Your task to perform on an android device: Search for the most popular coffee table on Crate & Barrel Image 0: 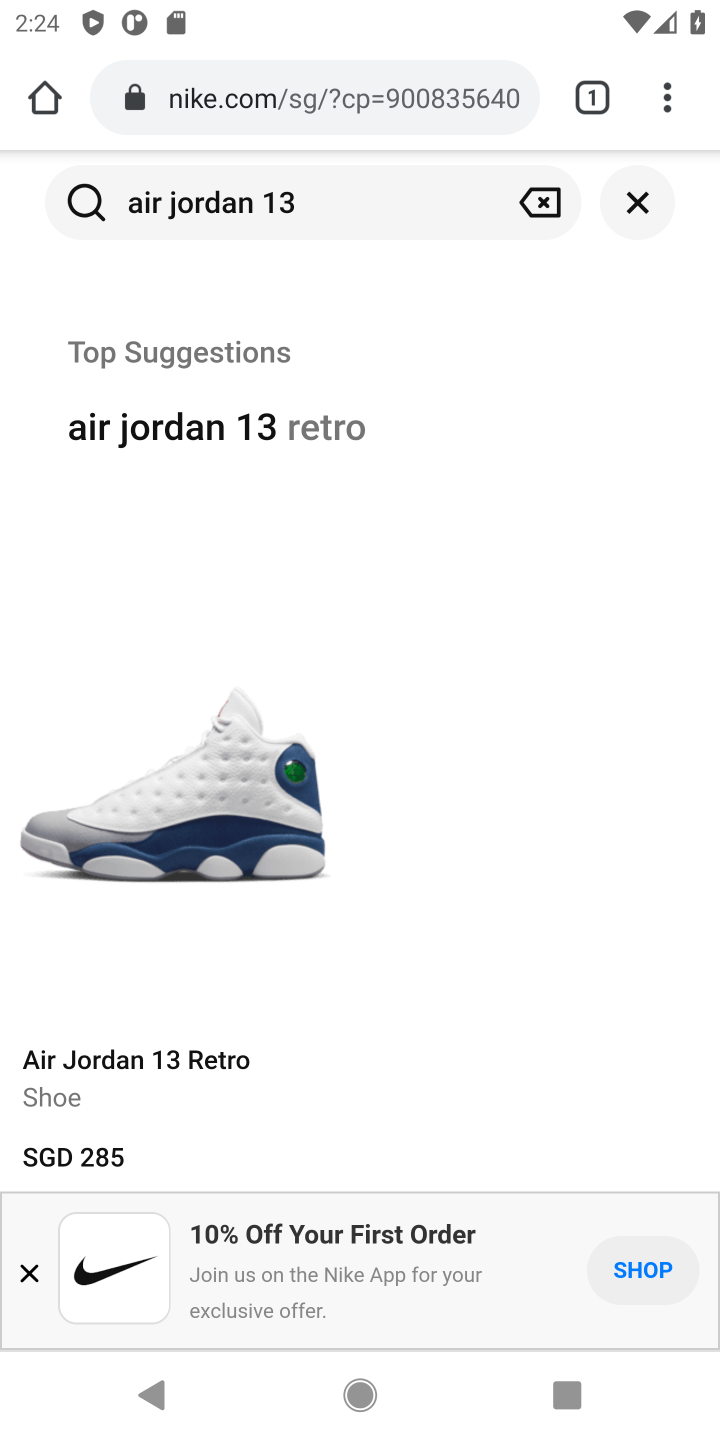
Step 0: press home button
Your task to perform on an android device: Search for the most popular coffee table on Crate & Barrel Image 1: 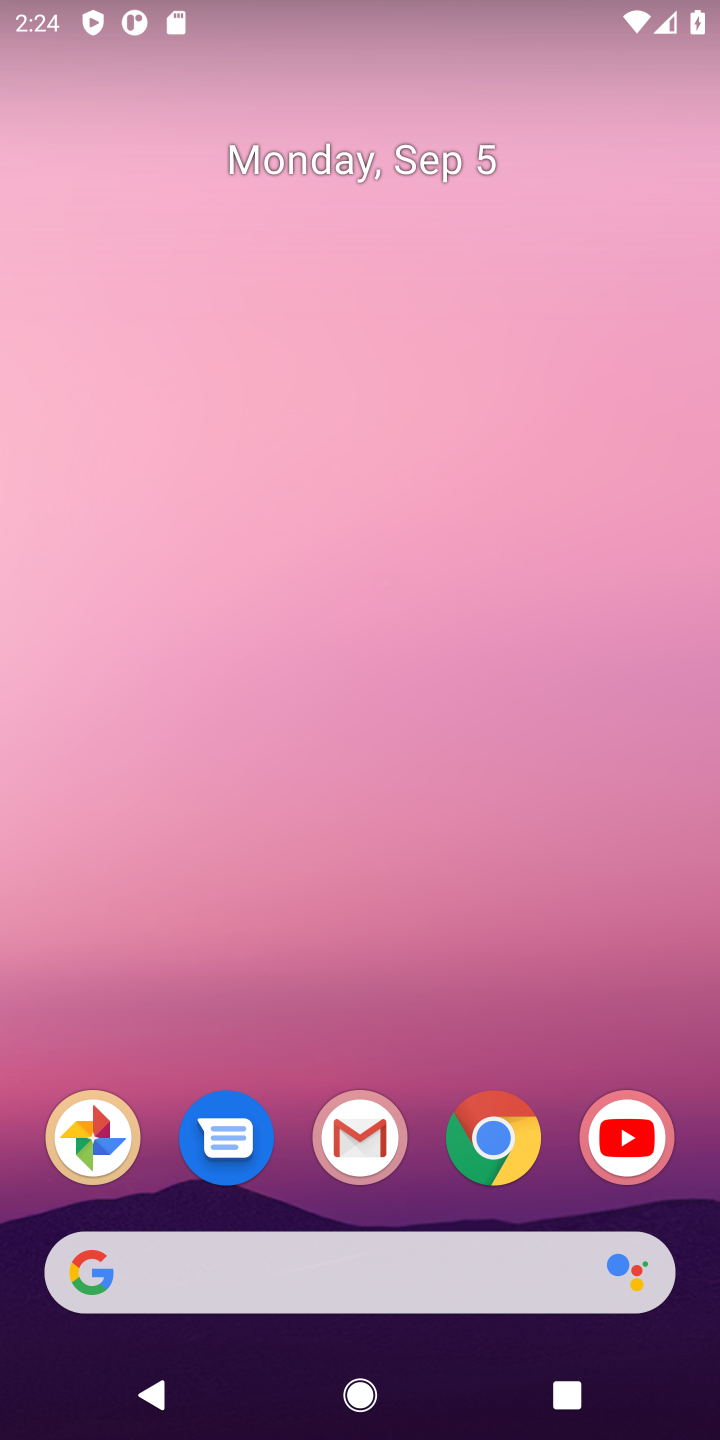
Step 1: click (497, 1157)
Your task to perform on an android device: Search for the most popular coffee table on Crate & Barrel Image 2: 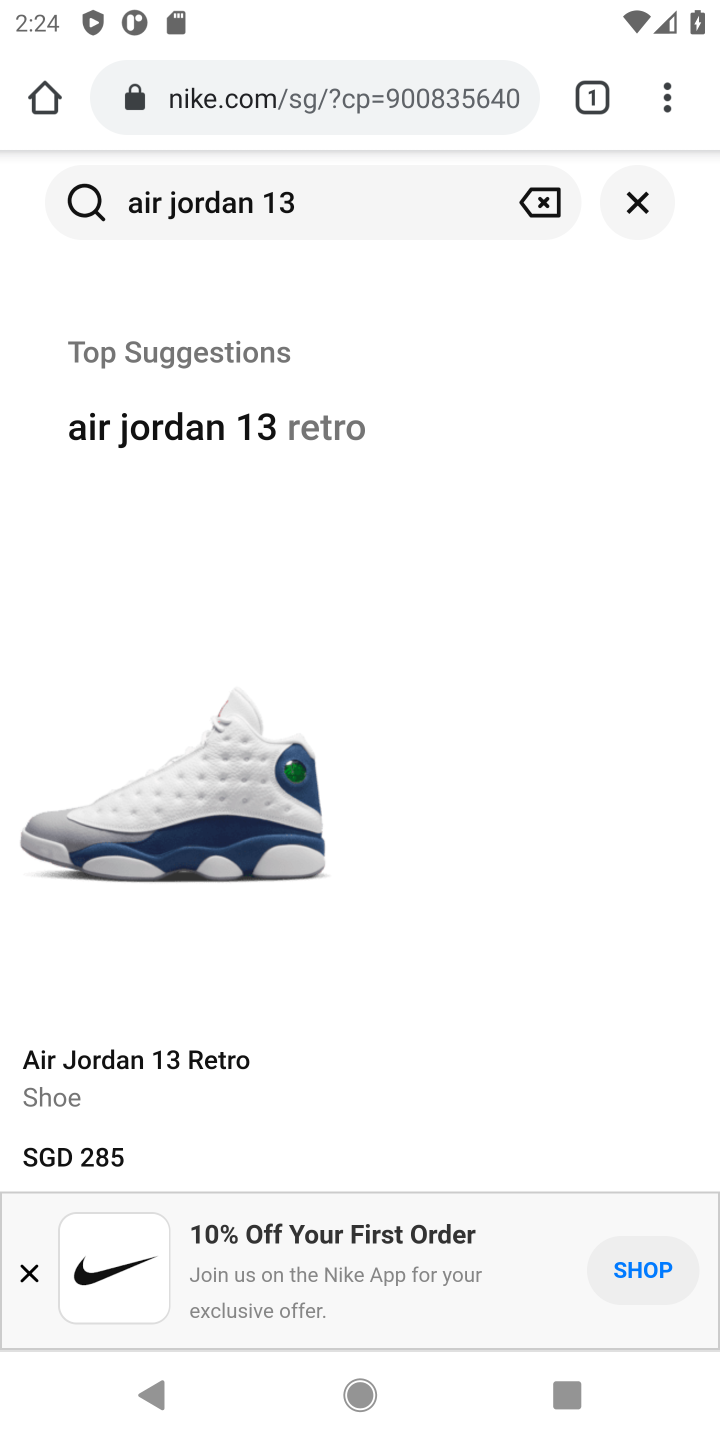
Step 2: click (323, 99)
Your task to perform on an android device: Search for the most popular coffee table on Crate & Barrel Image 3: 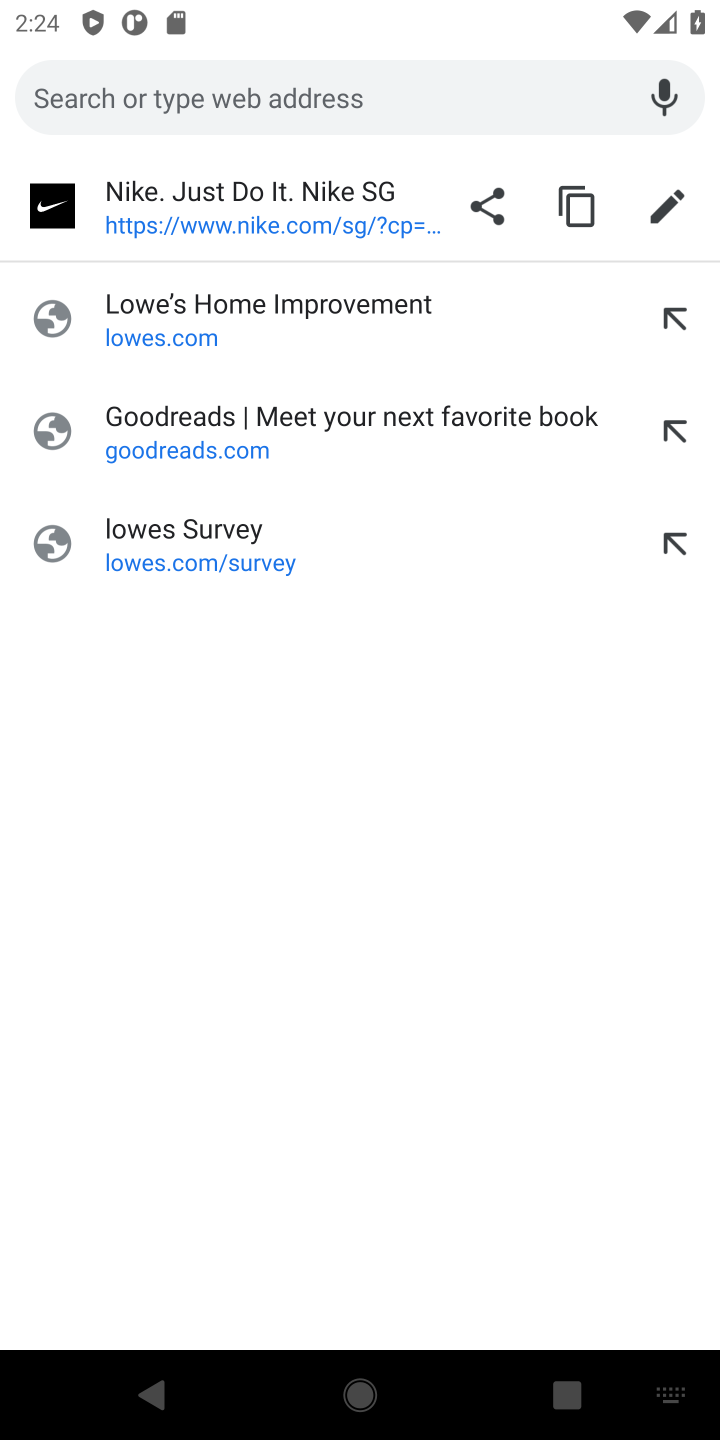
Step 3: type "crate & barrel"
Your task to perform on an android device: Search for the most popular coffee table on Crate & Barrel Image 4: 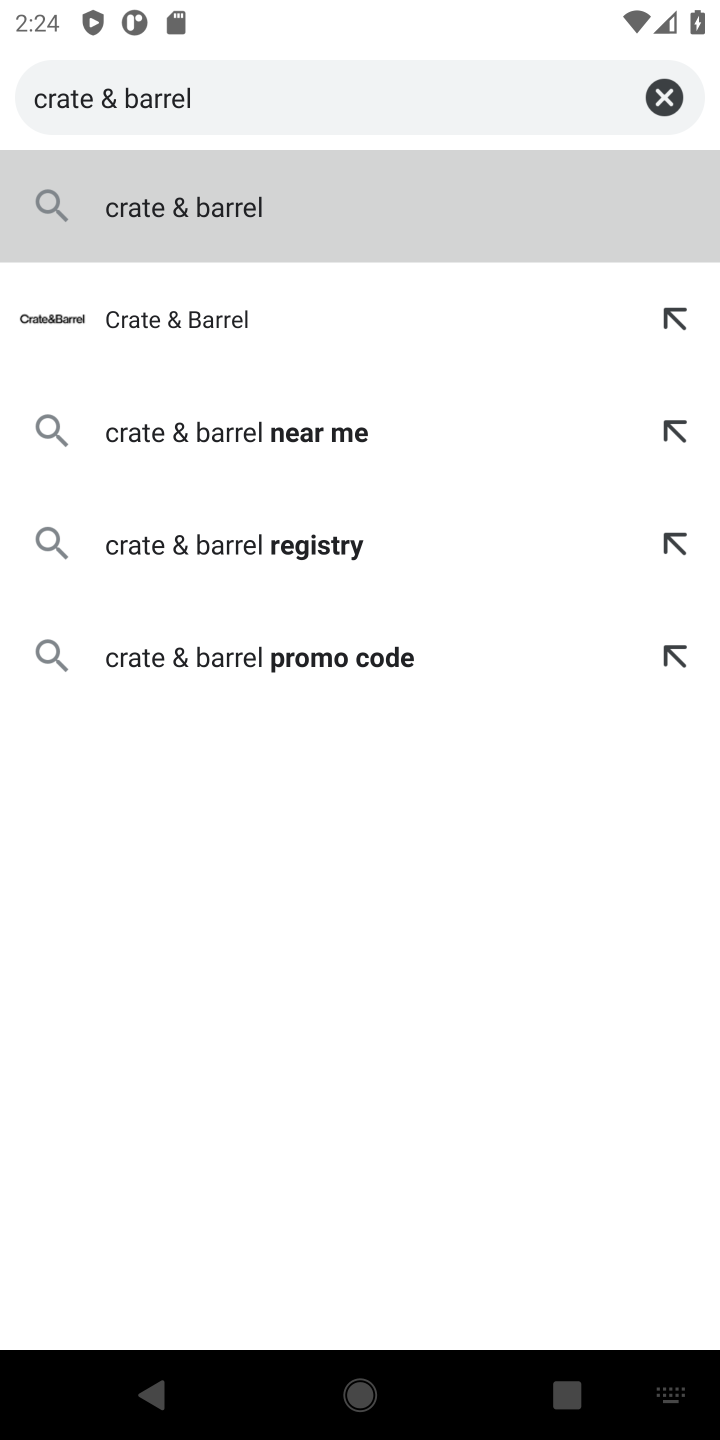
Step 4: type ""
Your task to perform on an android device: Search for the most popular coffee table on Crate & Barrel Image 5: 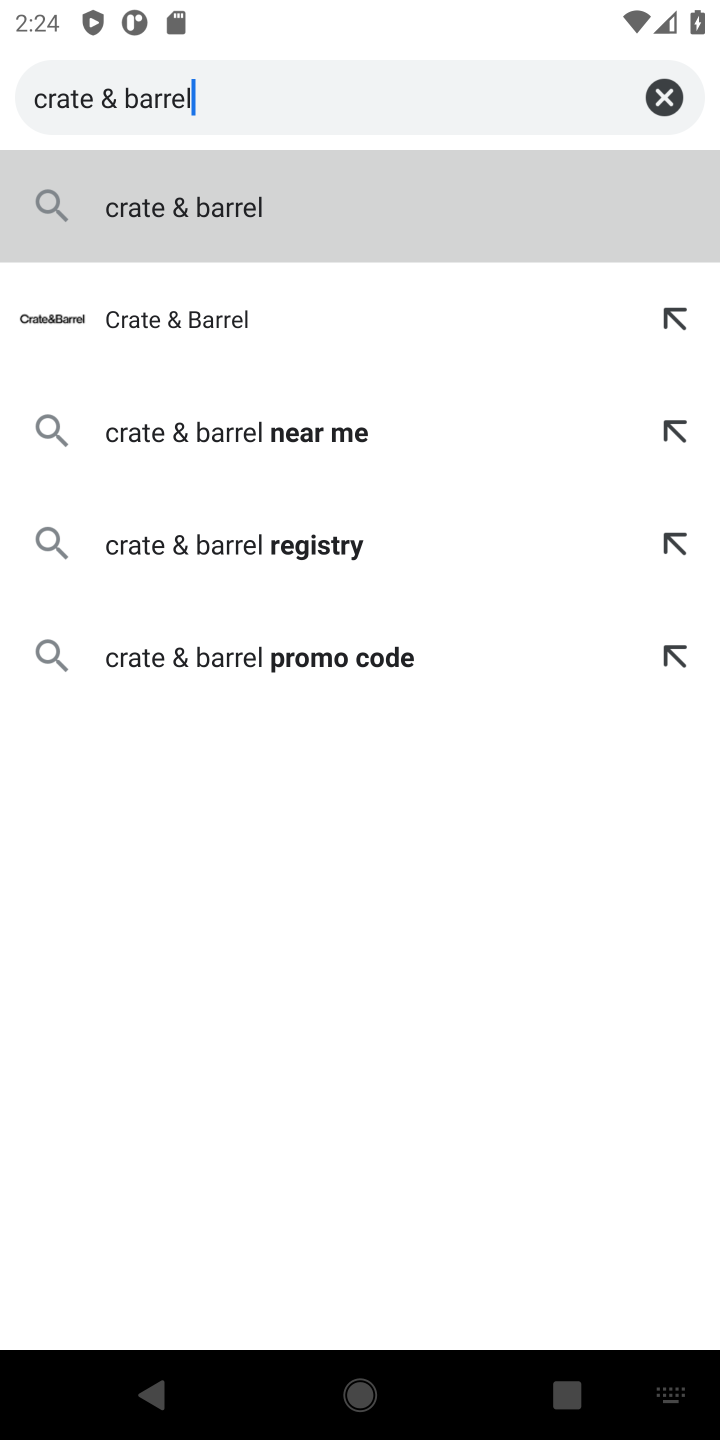
Step 5: click (149, 305)
Your task to perform on an android device: Search for the most popular coffee table on Crate & Barrel Image 6: 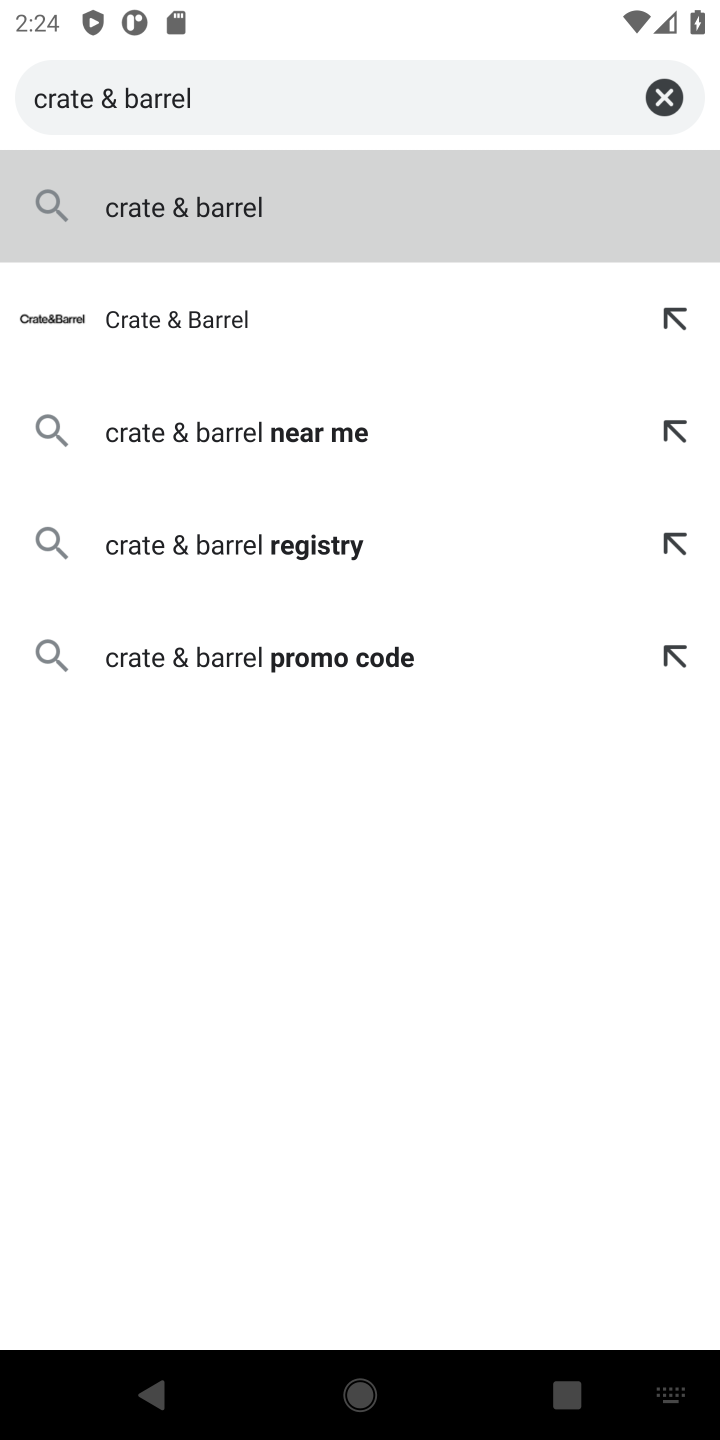
Step 6: click (140, 328)
Your task to perform on an android device: Search for the most popular coffee table on Crate & Barrel Image 7: 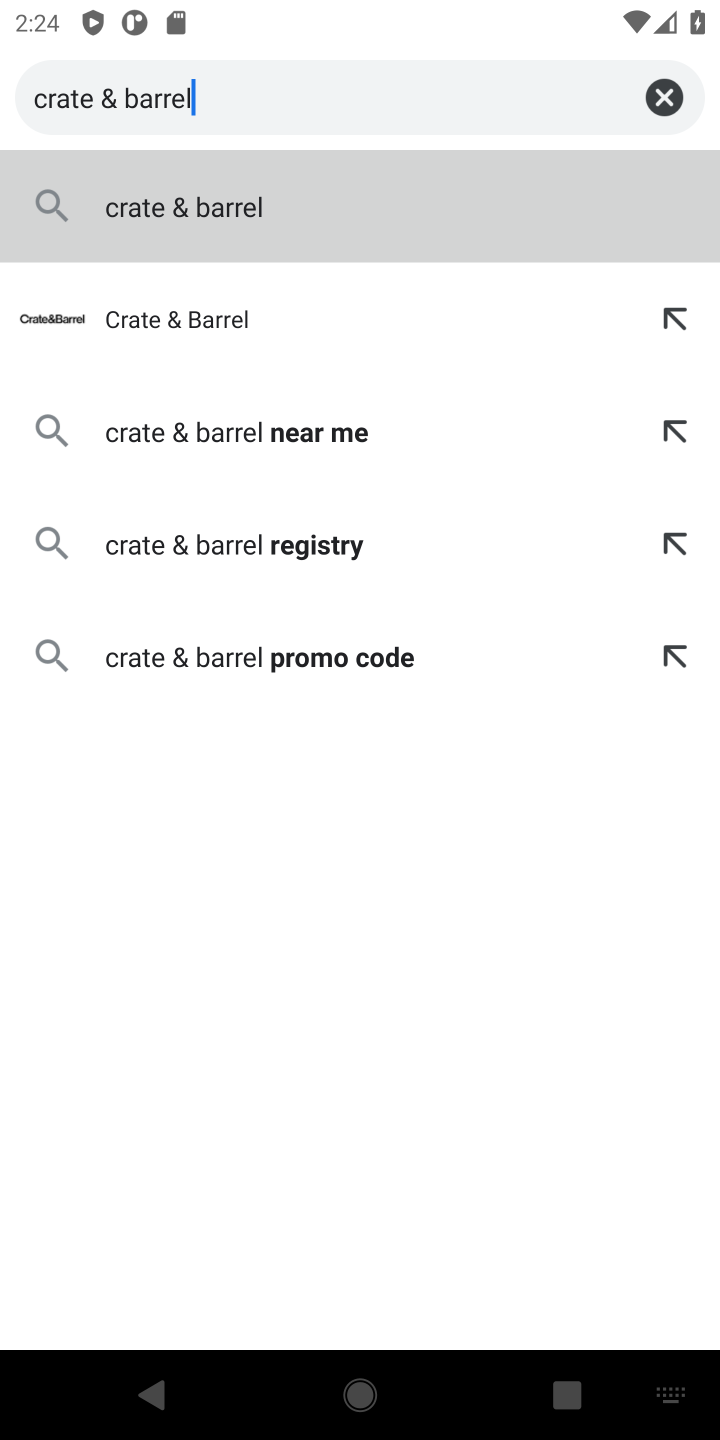
Step 7: click (220, 310)
Your task to perform on an android device: Search for the most popular coffee table on Crate & Barrel Image 8: 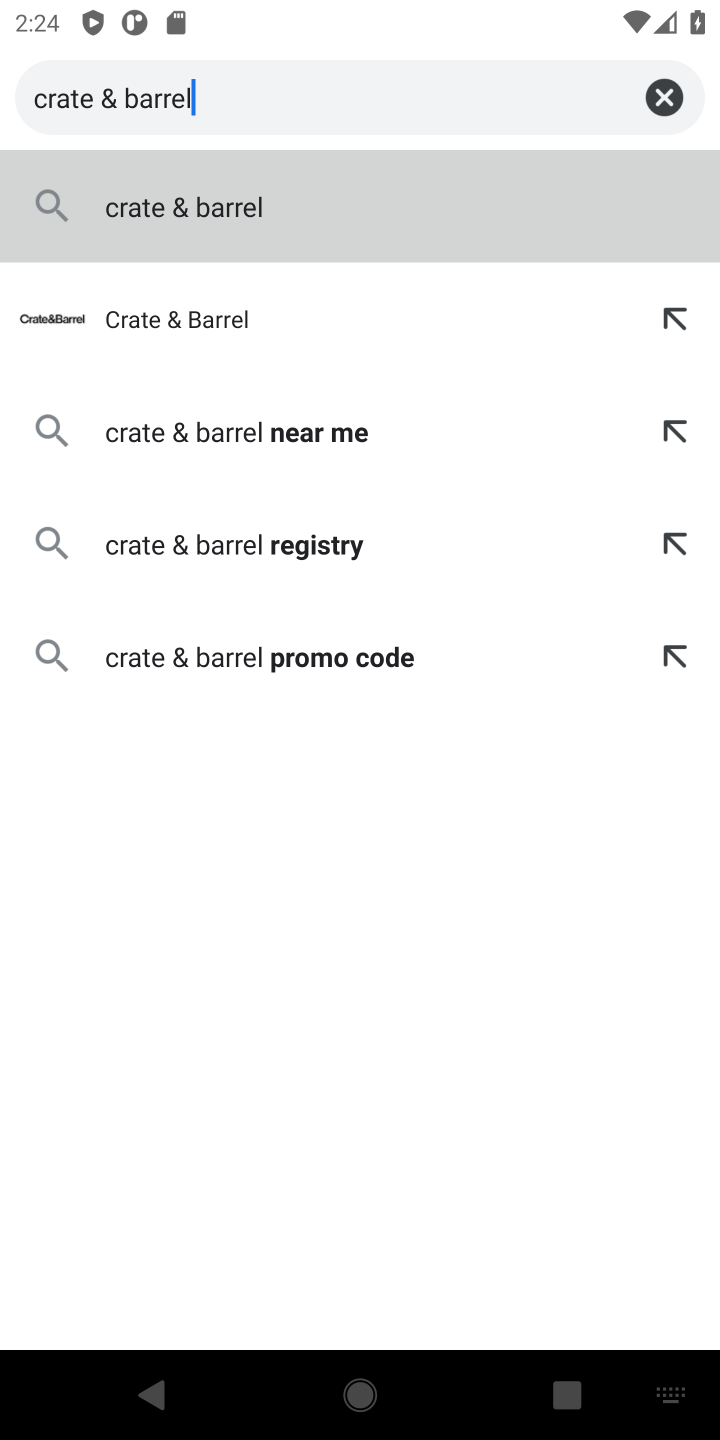
Step 8: click (113, 324)
Your task to perform on an android device: Search for the most popular coffee table on Crate & Barrel Image 9: 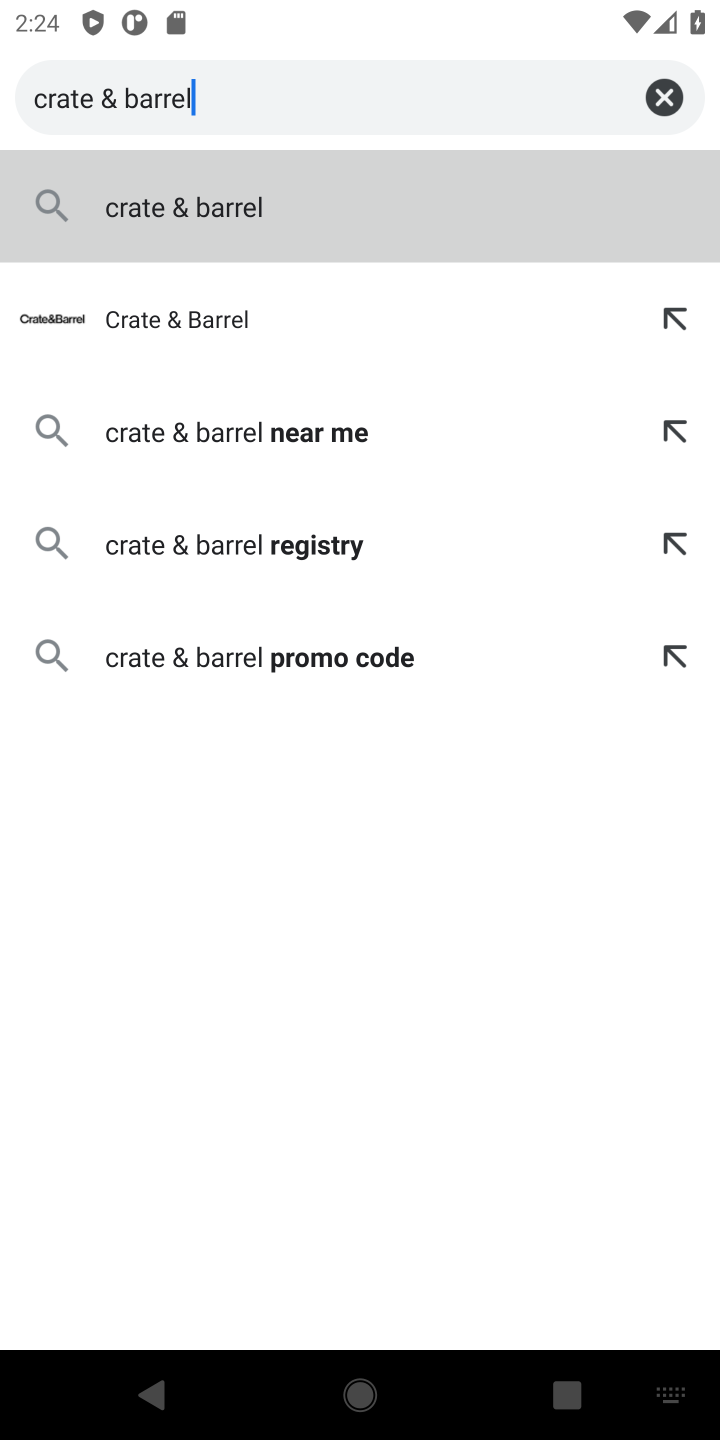
Step 9: click (150, 316)
Your task to perform on an android device: Search for the most popular coffee table on Crate & Barrel Image 10: 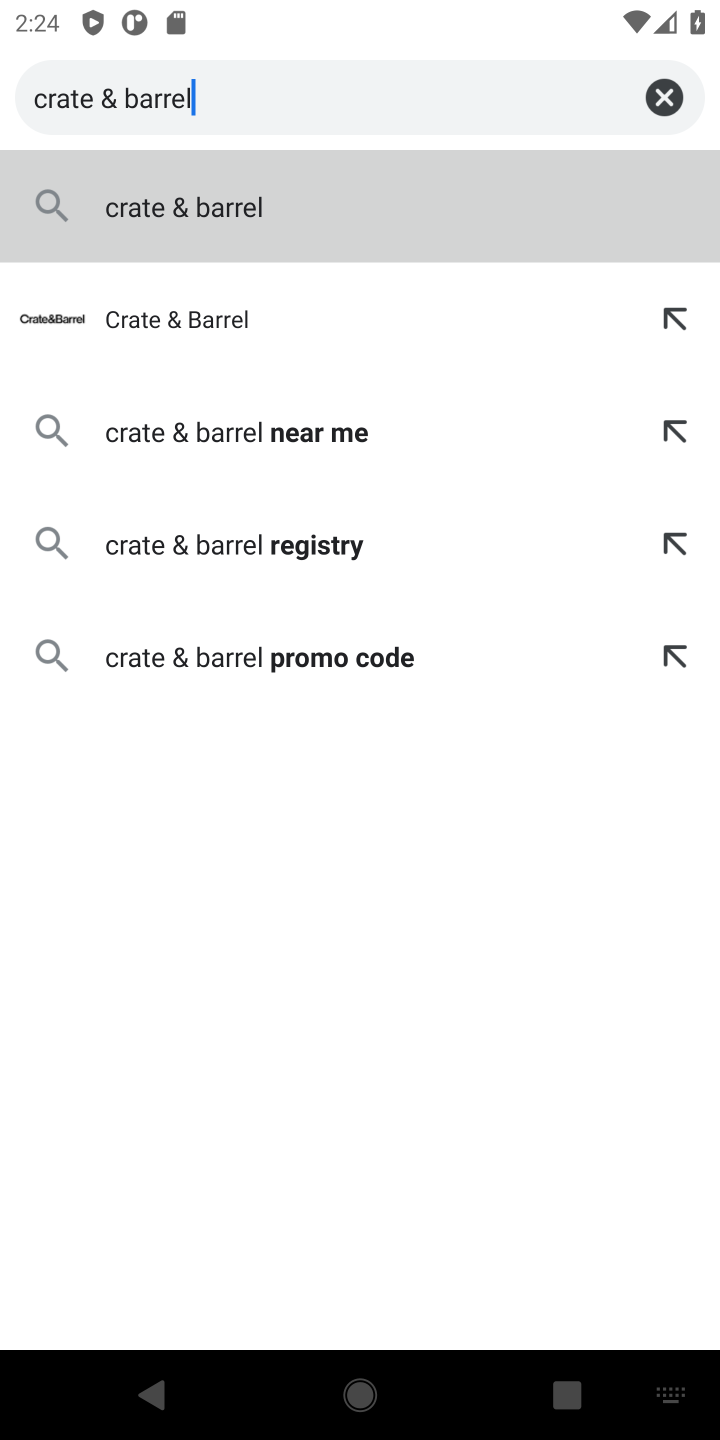
Step 10: click (148, 314)
Your task to perform on an android device: Search for the most popular coffee table on Crate & Barrel Image 11: 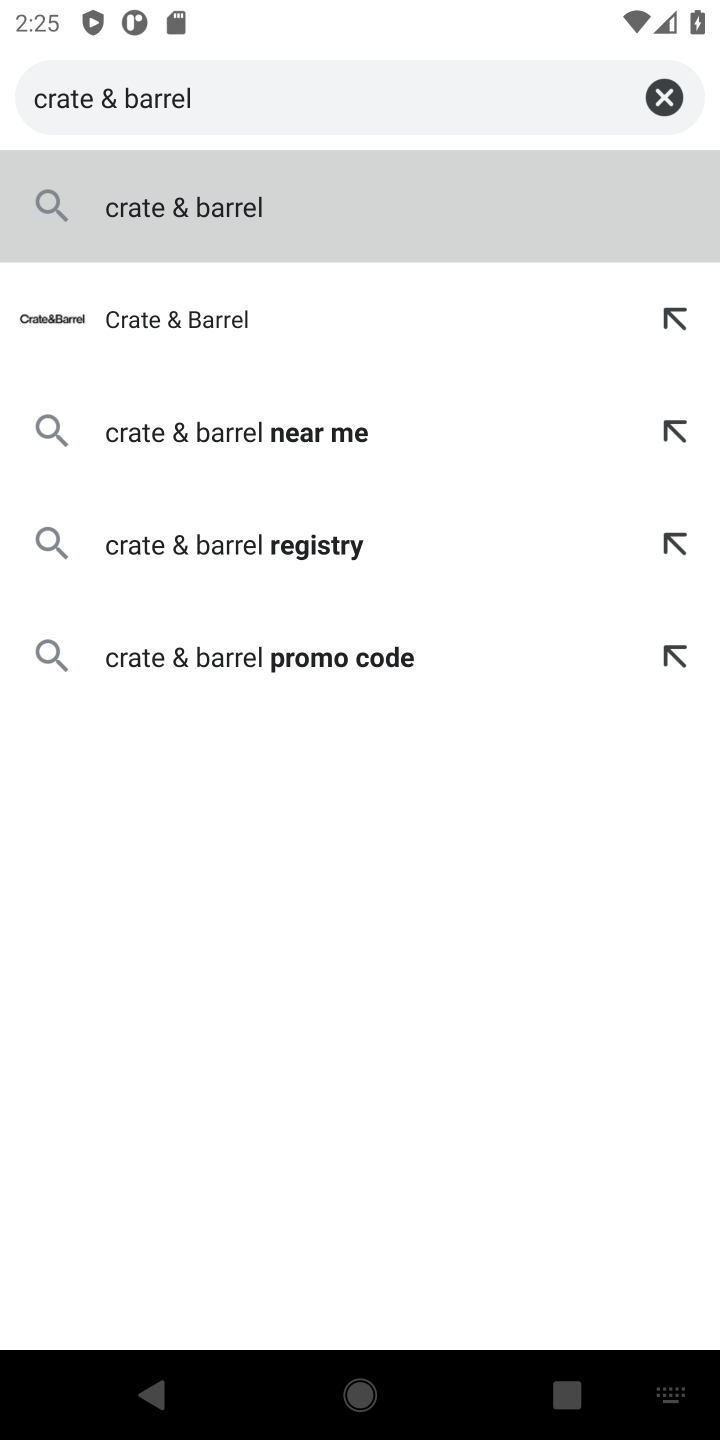
Step 11: click (148, 314)
Your task to perform on an android device: Search for the most popular coffee table on Crate & Barrel Image 12: 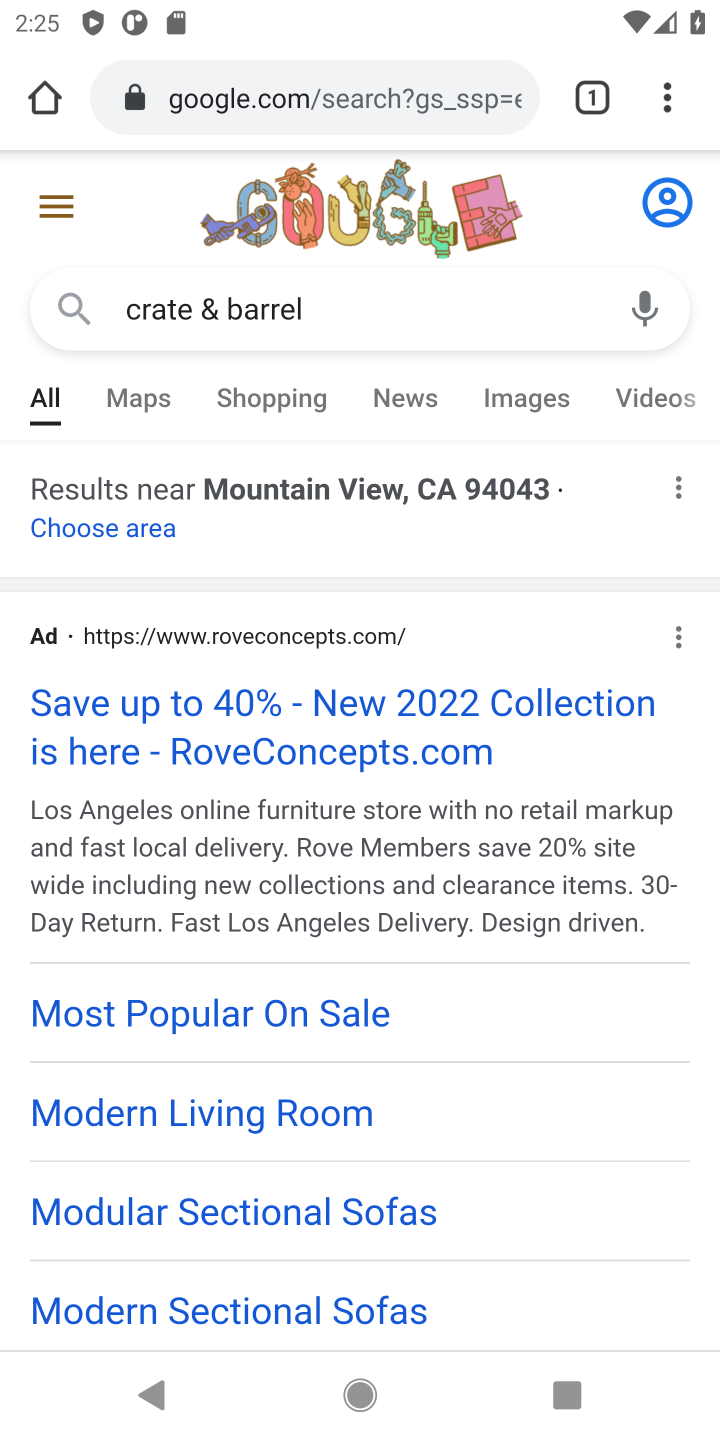
Step 12: drag from (670, 941) to (620, 601)
Your task to perform on an android device: Search for the most popular coffee table on Crate & Barrel Image 13: 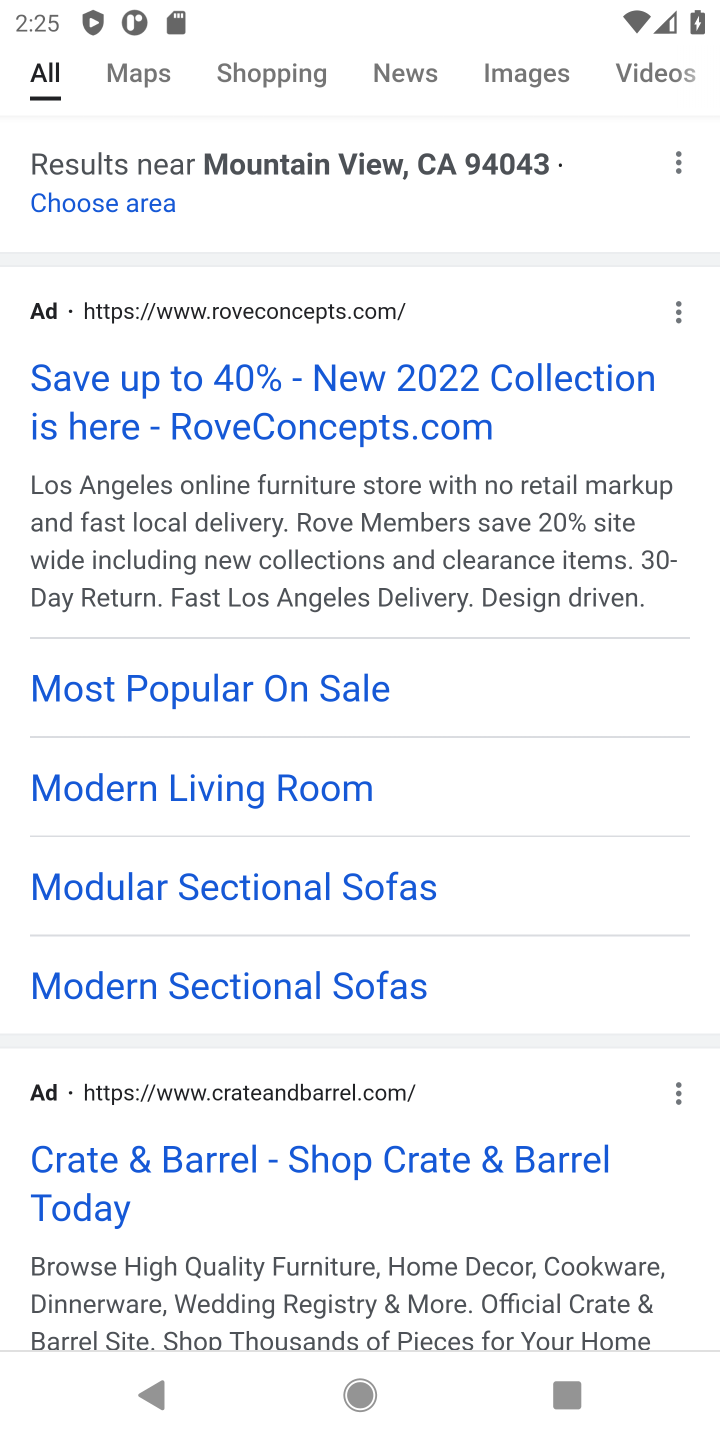
Step 13: click (173, 1145)
Your task to perform on an android device: Search for the most popular coffee table on Crate & Barrel Image 14: 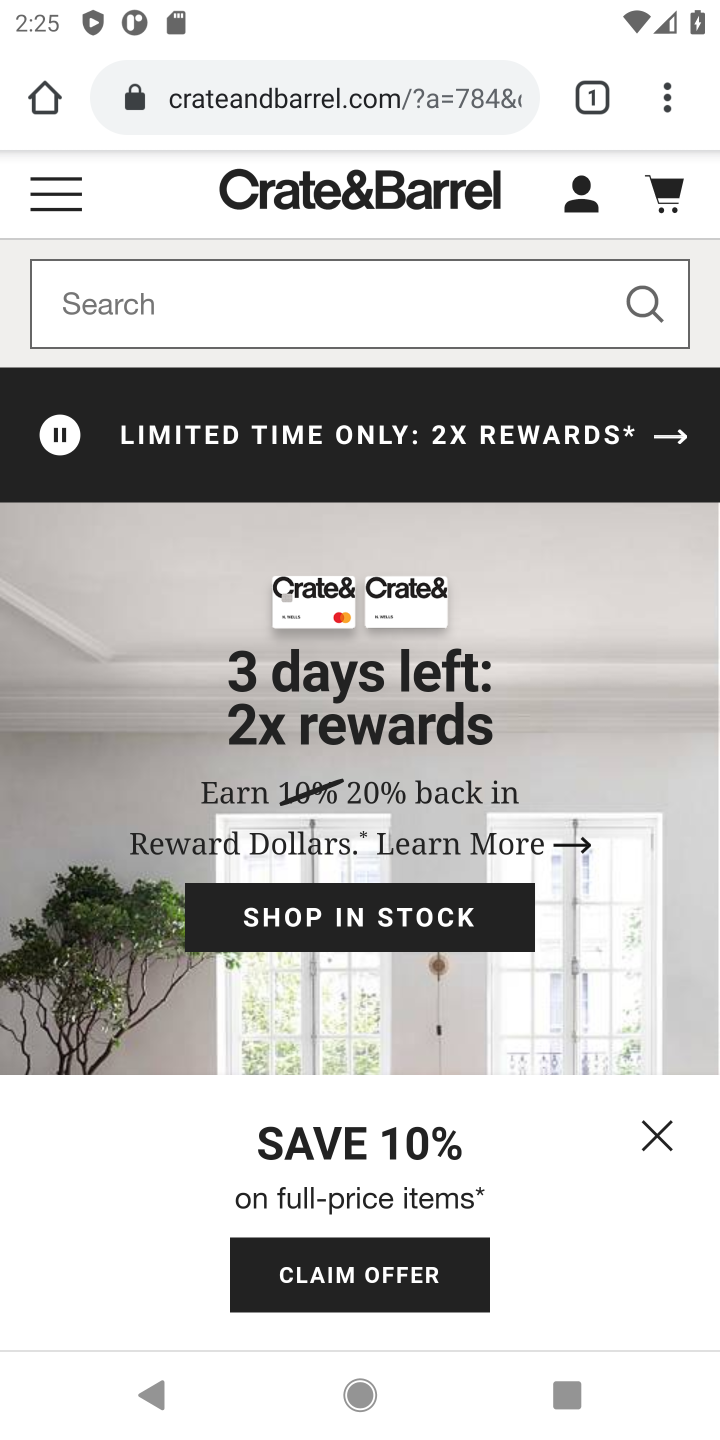
Step 14: click (225, 303)
Your task to perform on an android device: Search for the most popular coffee table on Crate & Barrel Image 15: 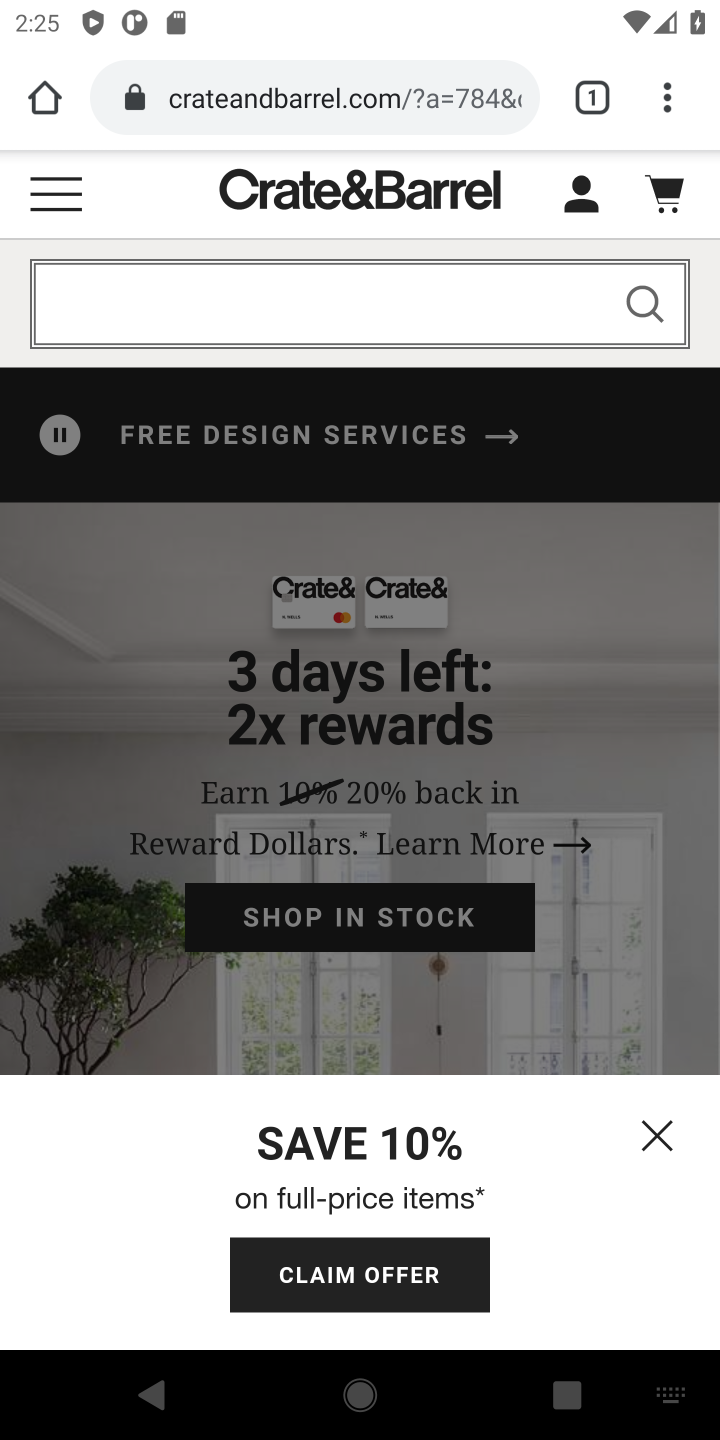
Step 15: type "coffee table "
Your task to perform on an android device: Search for the most popular coffee table on Crate & Barrel Image 16: 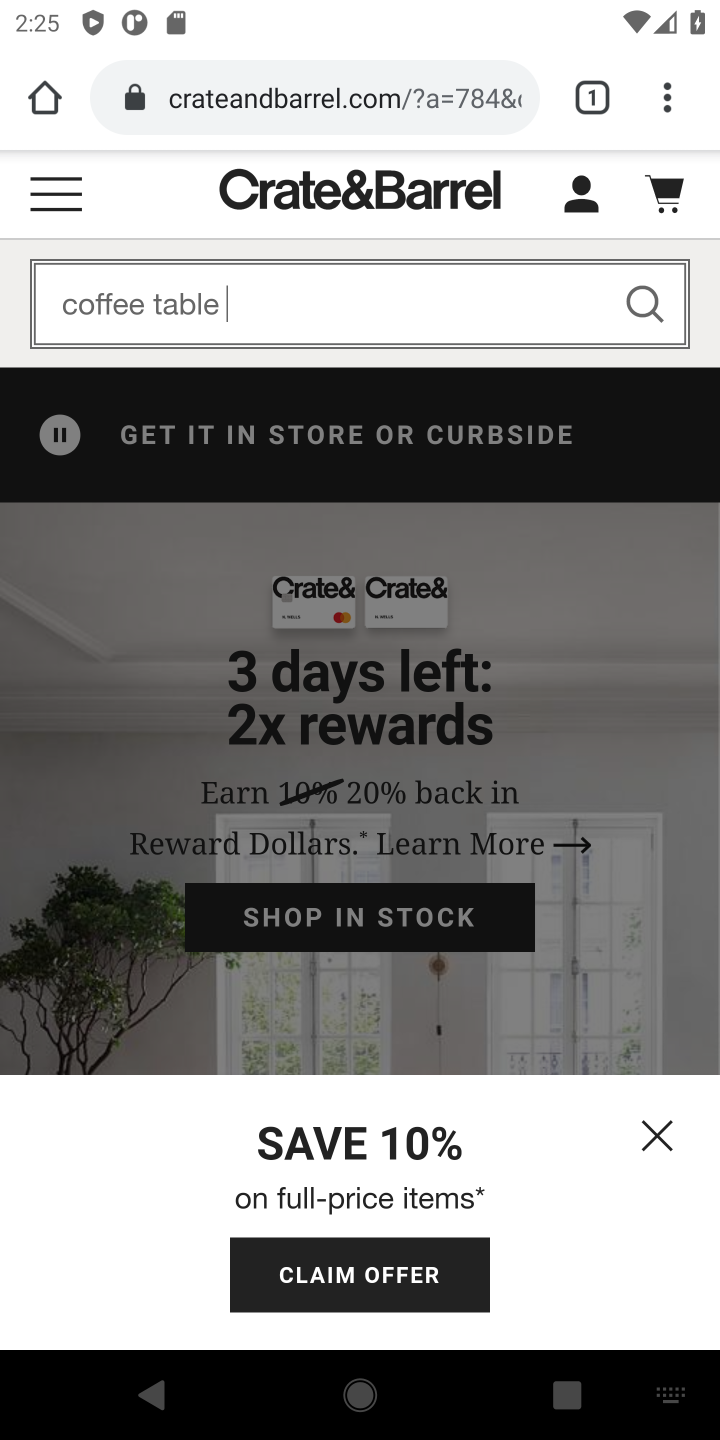
Step 16: click (656, 1132)
Your task to perform on an android device: Search for the most popular coffee table on Crate & Barrel Image 17: 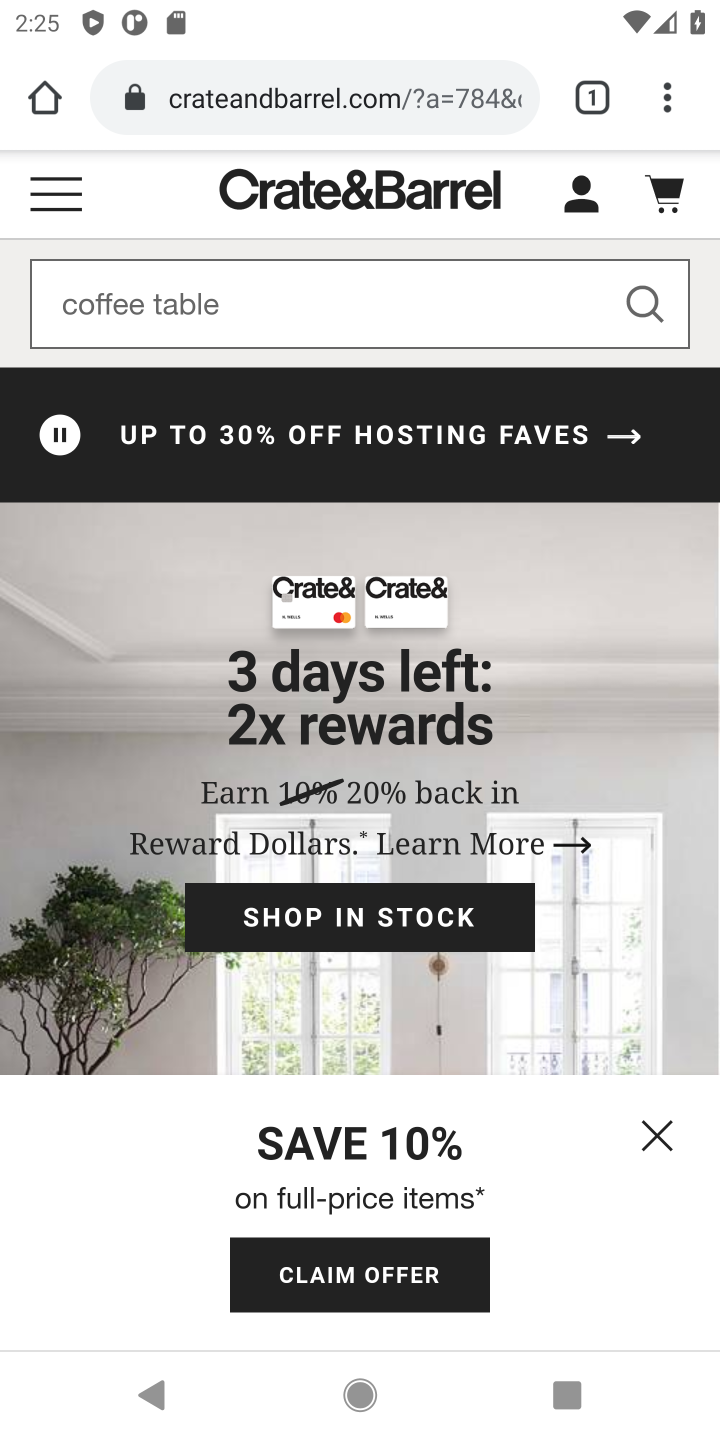
Step 17: click (646, 1139)
Your task to perform on an android device: Search for the most popular coffee table on Crate & Barrel Image 18: 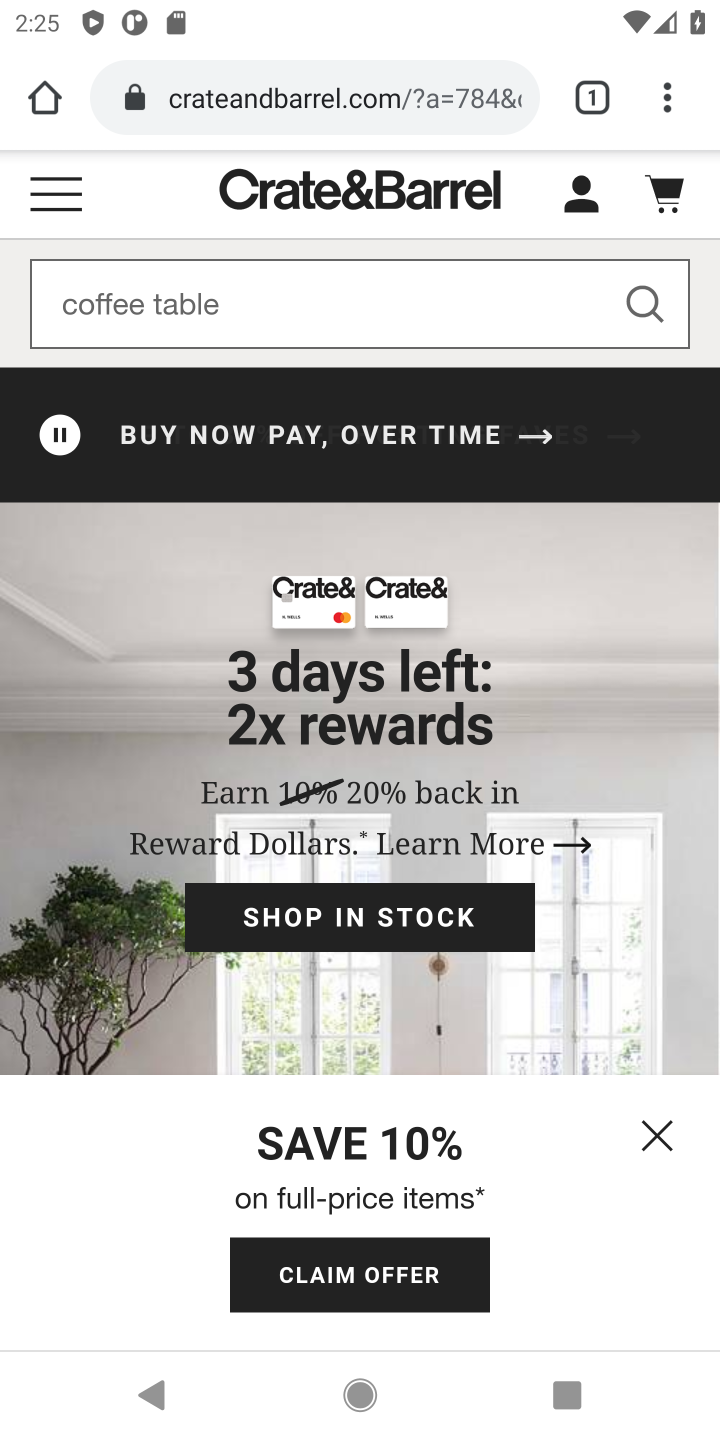
Step 18: drag from (650, 998) to (591, 525)
Your task to perform on an android device: Search for the most popular coffee table on Crate & Barrel Image 19: 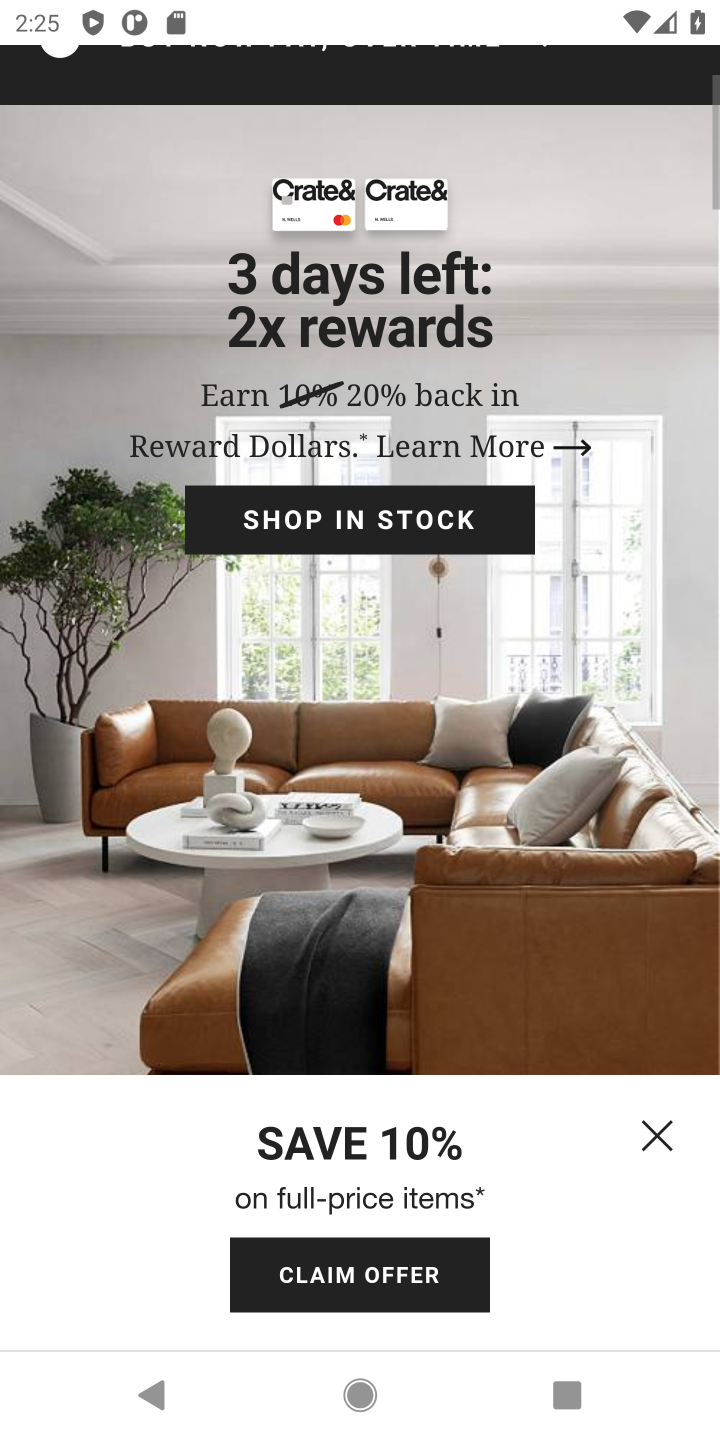
Step 19: drag from (445, 767) to (427, 415)
Your task to perform on an android device: Search for the most popular coffee table on Crate & Barrel Image 20: 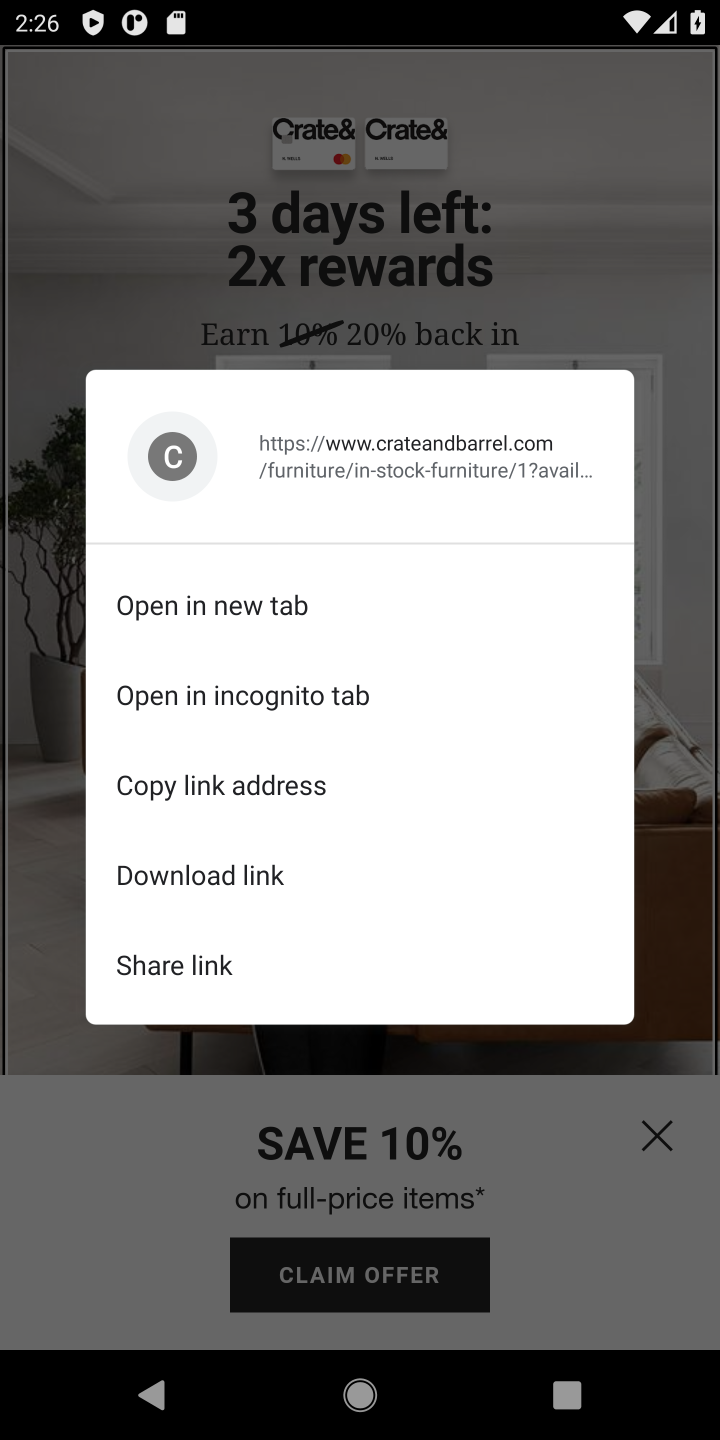
Step 20: click (659, 1136)
Your task to perform on an android device: Search for the most popular coffee table on Crate & Barrel Image 21: 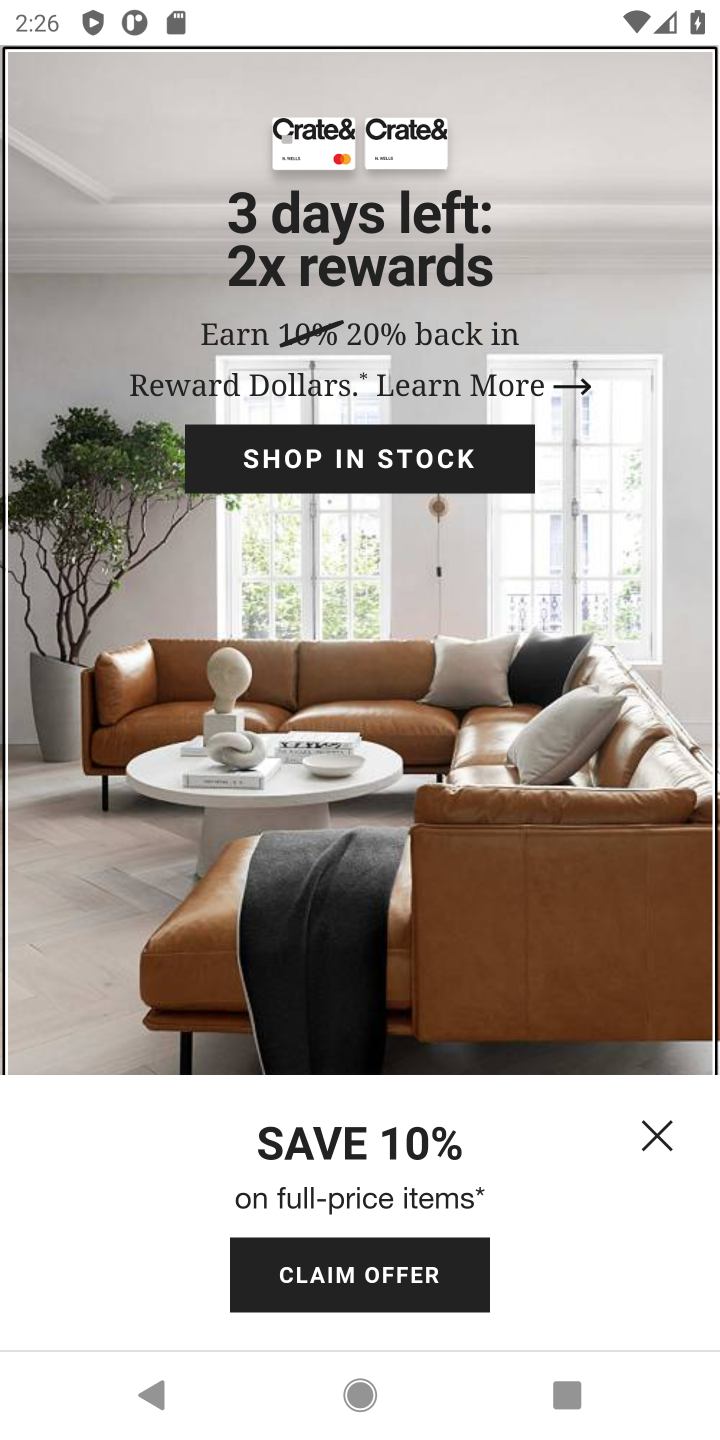
Step 21: drag from (652, 1132) to (551, 243)
Your task to perform on an android device: Search for the most popular coffee table on Crate & Barrel Image 22: 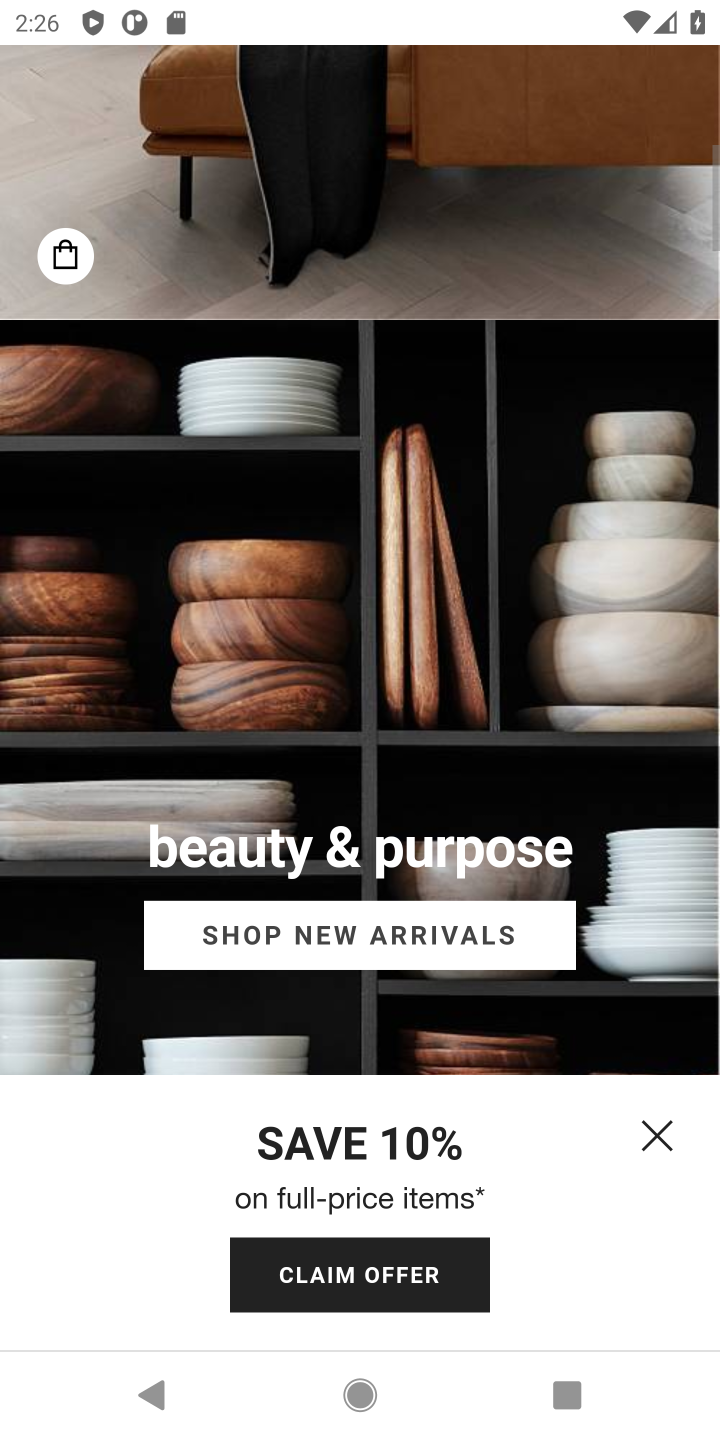
Step 22: click (646, 1140)
Your task to perform on an android device: Search for the most popular coffee table on Crate & Barrel Image 23: 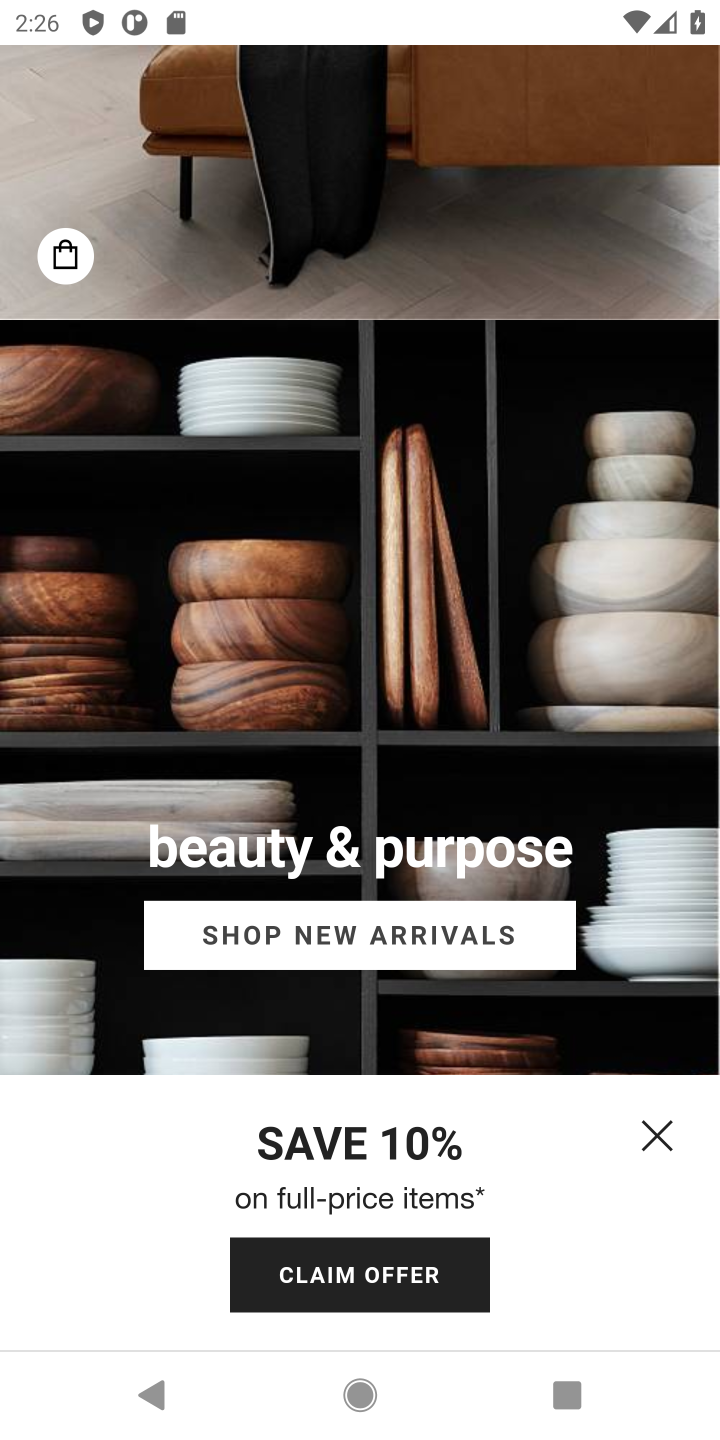
Step 23: click (657, 1138)
Your task to perform on an android device: Search for the most popular coffee table on Crate & Barrel Image 24: 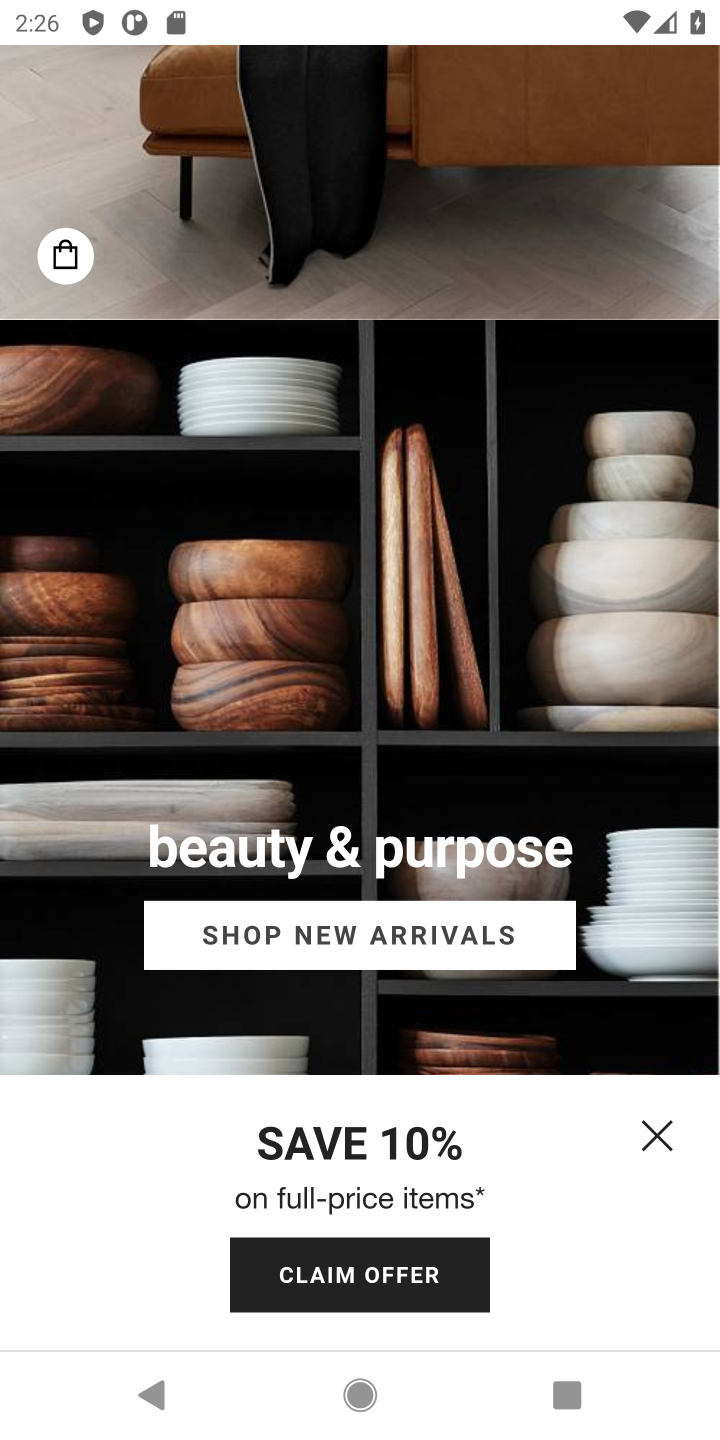
Step 24: press enter
Your task to perform on an android device: Search for the most popular coffee table on Crate & Barrel Image 25: 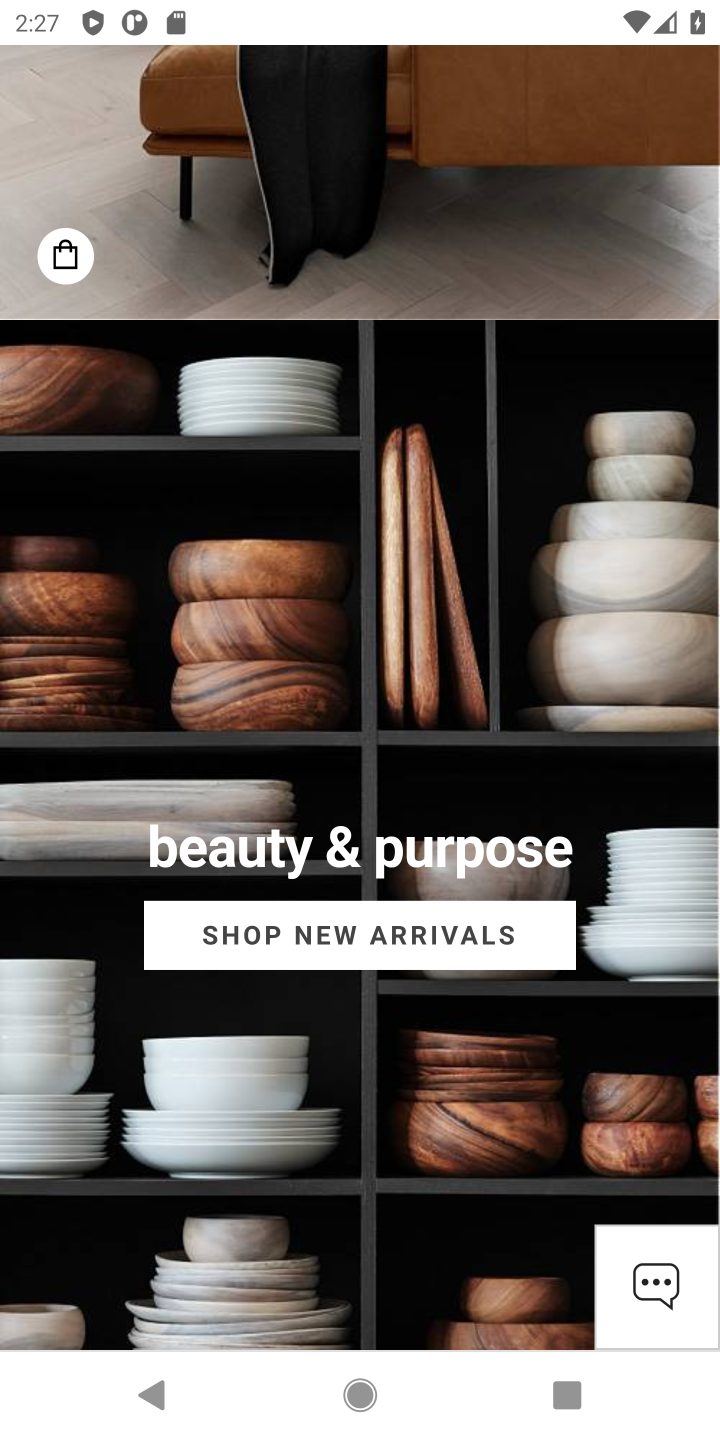
Step 25: press back button
Your task to perform on an android device: Search for the most popular coffee table on Crate & Barrel Image 26: 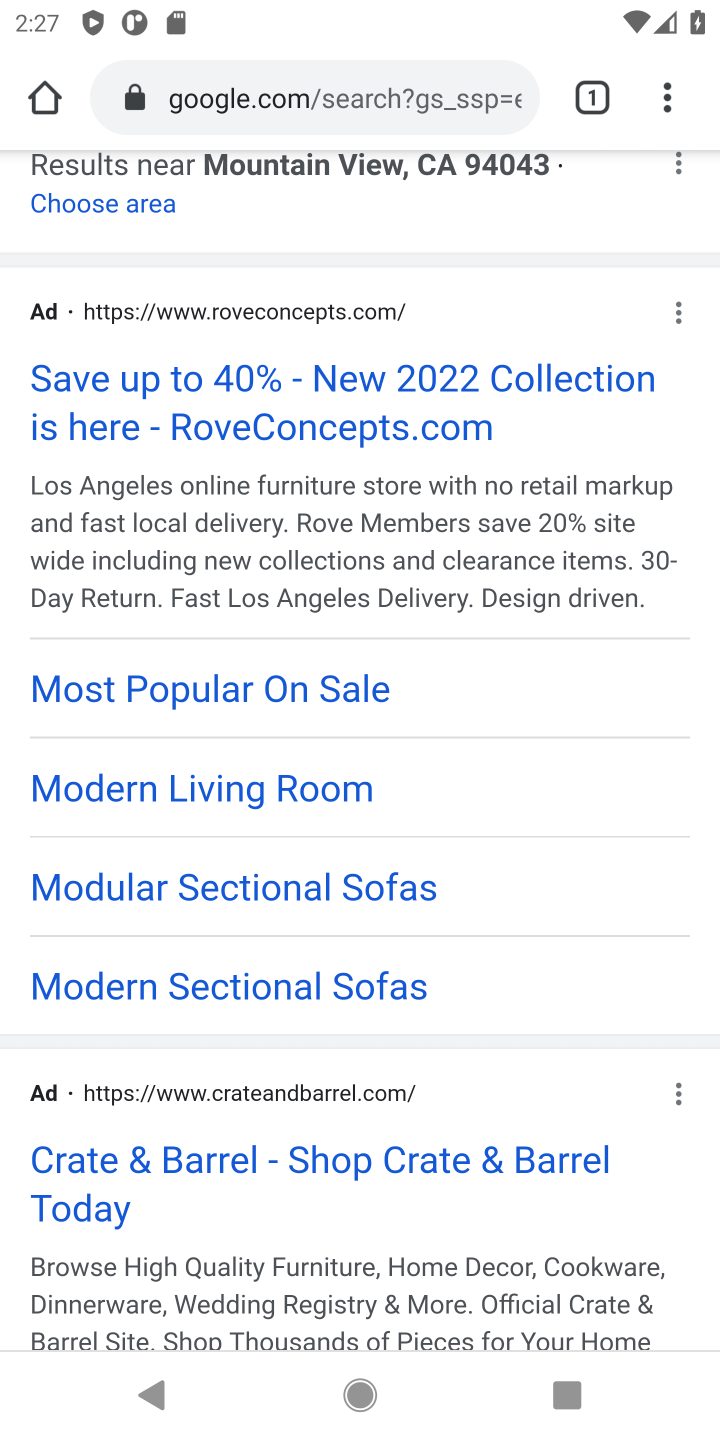
Step 26: click (205, 1150)
Your task to perform on an android device: Search for the most popular coffee table on Crate & Barrel Image 27: 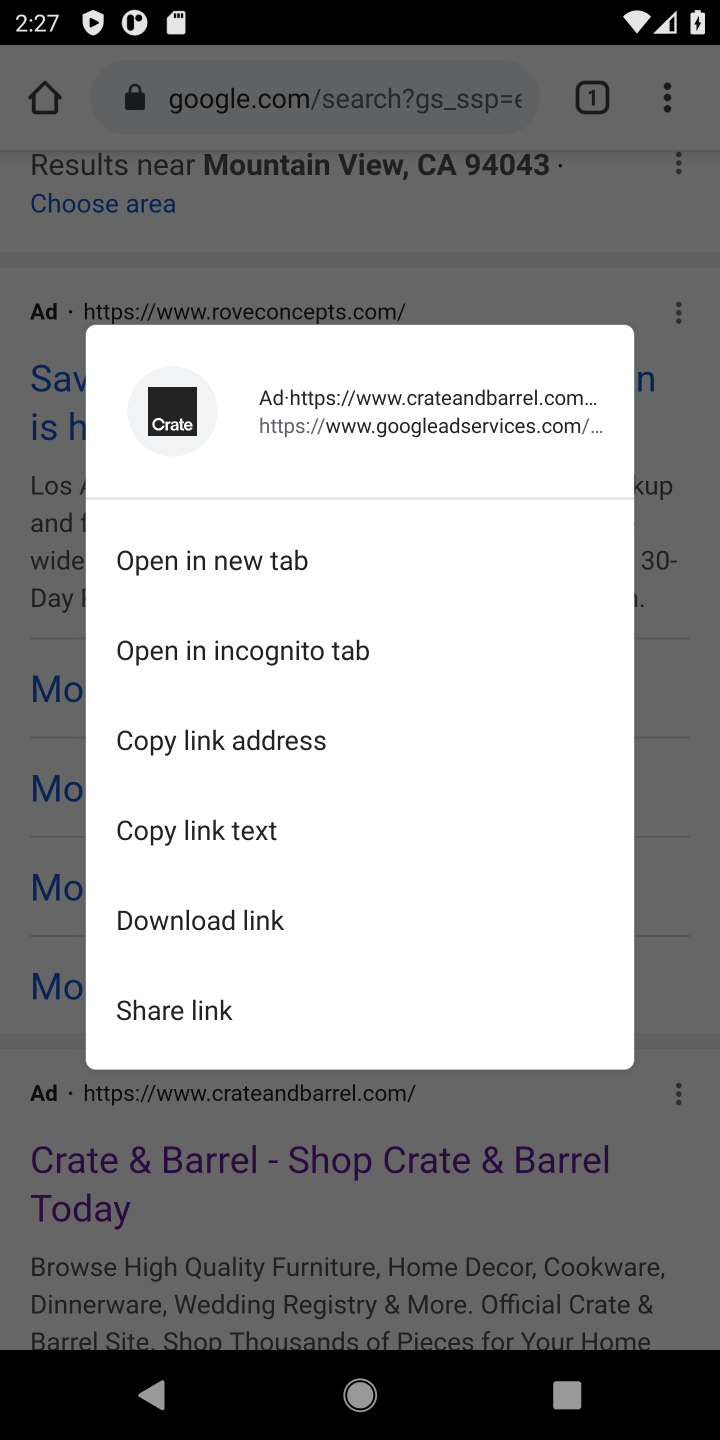
Step 27: click (649, 1190)
Your task to perform on an android device: Search for the most popular coffee table on Crate & Barrel Image 28: 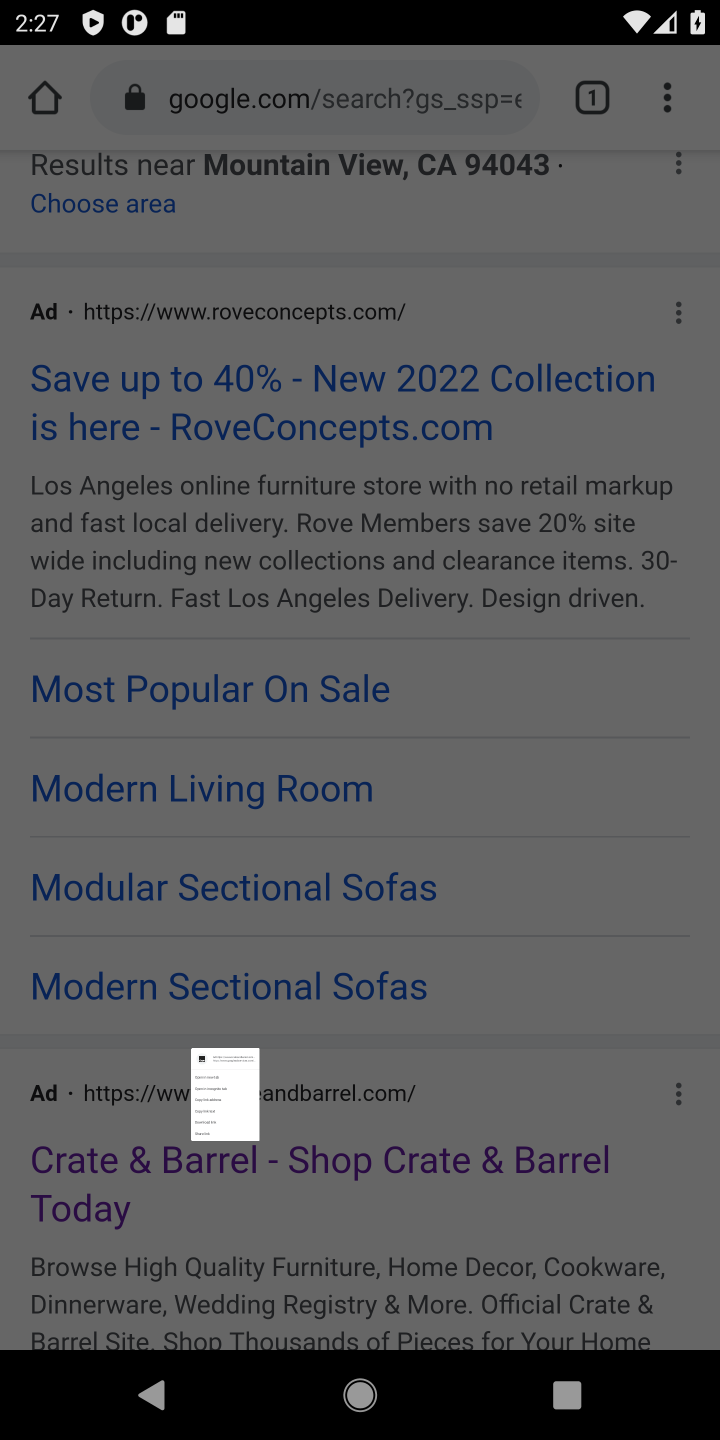
Step 28: drag from (652, 1182) to (595, 989)
Your task to perform on an android device: Search for the most popular coffee table on Crate & Barrel Image 29: 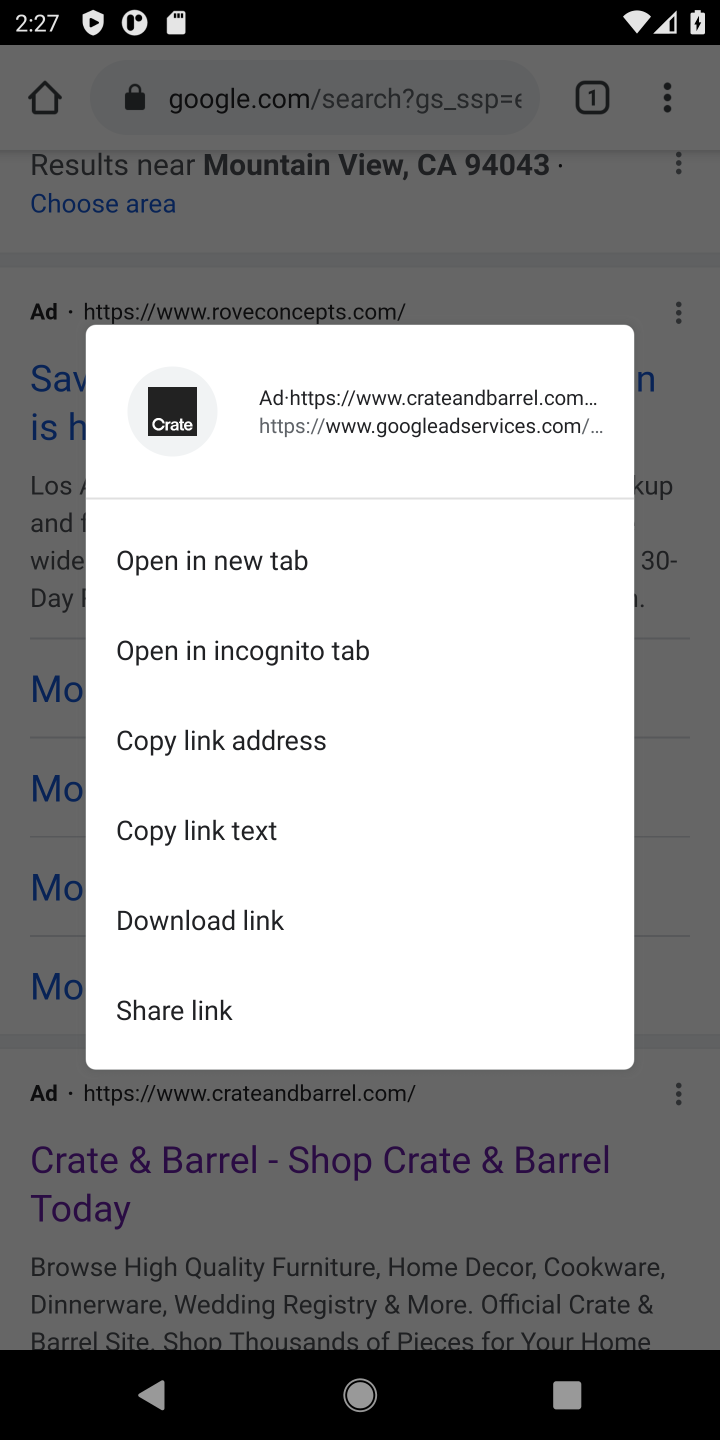
Step 29: click (189, 1165)
Your task to perform on an android device: Search for the most popular coffee table on Crate & Barrel Image 30: 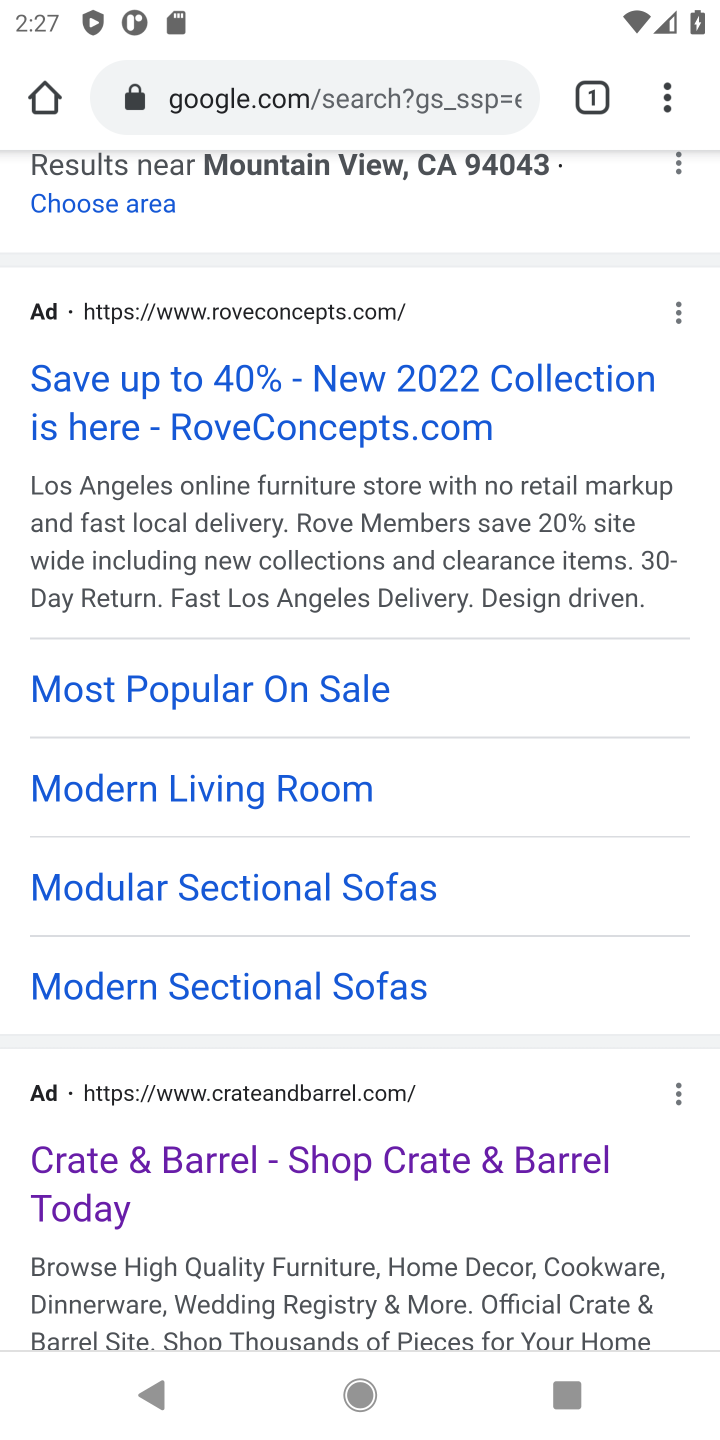
Step 30: click (188, 1165)
Your task to perform on an android device: Search for the most popular coffee table on Crate & Barrel Image 31: 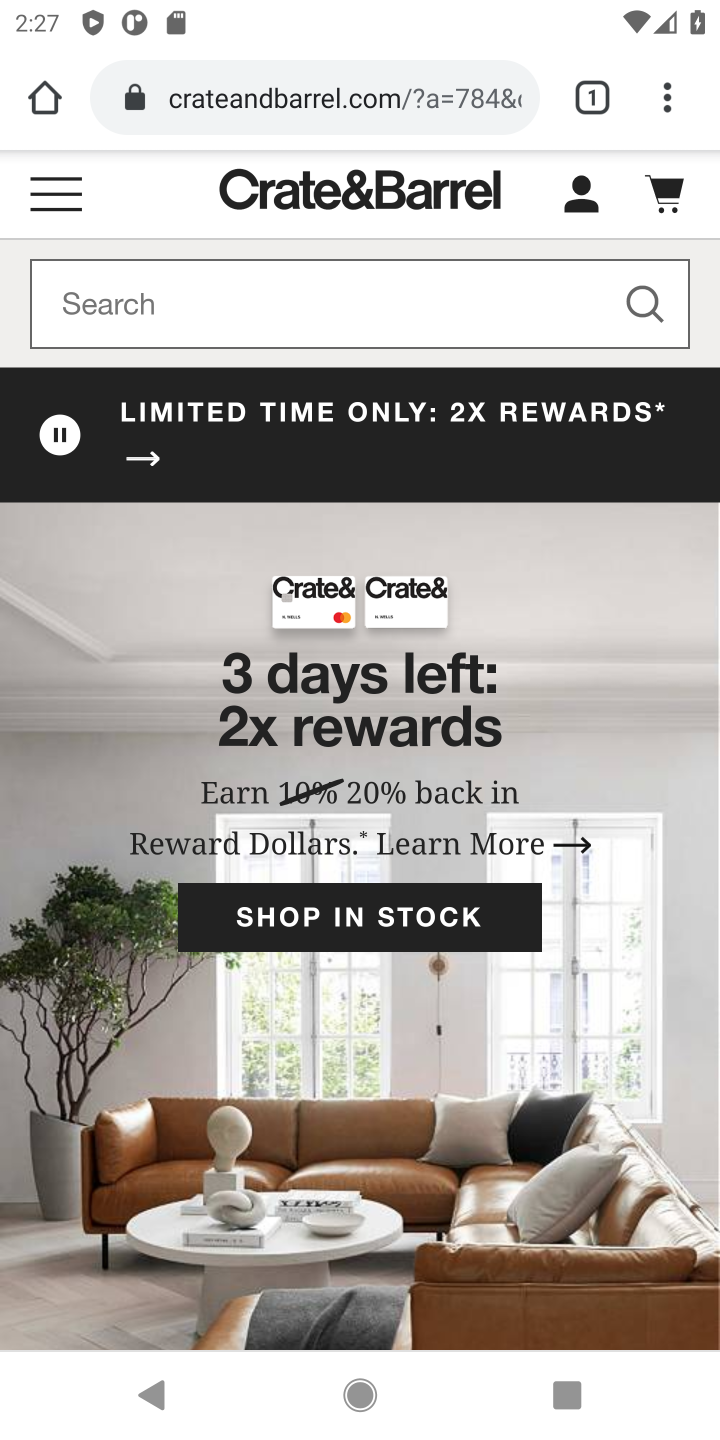
Step 31: click (97, 236)
Your task to perform on an android device: Search for the most popular coffee table on Crate & Barrel Image 32: 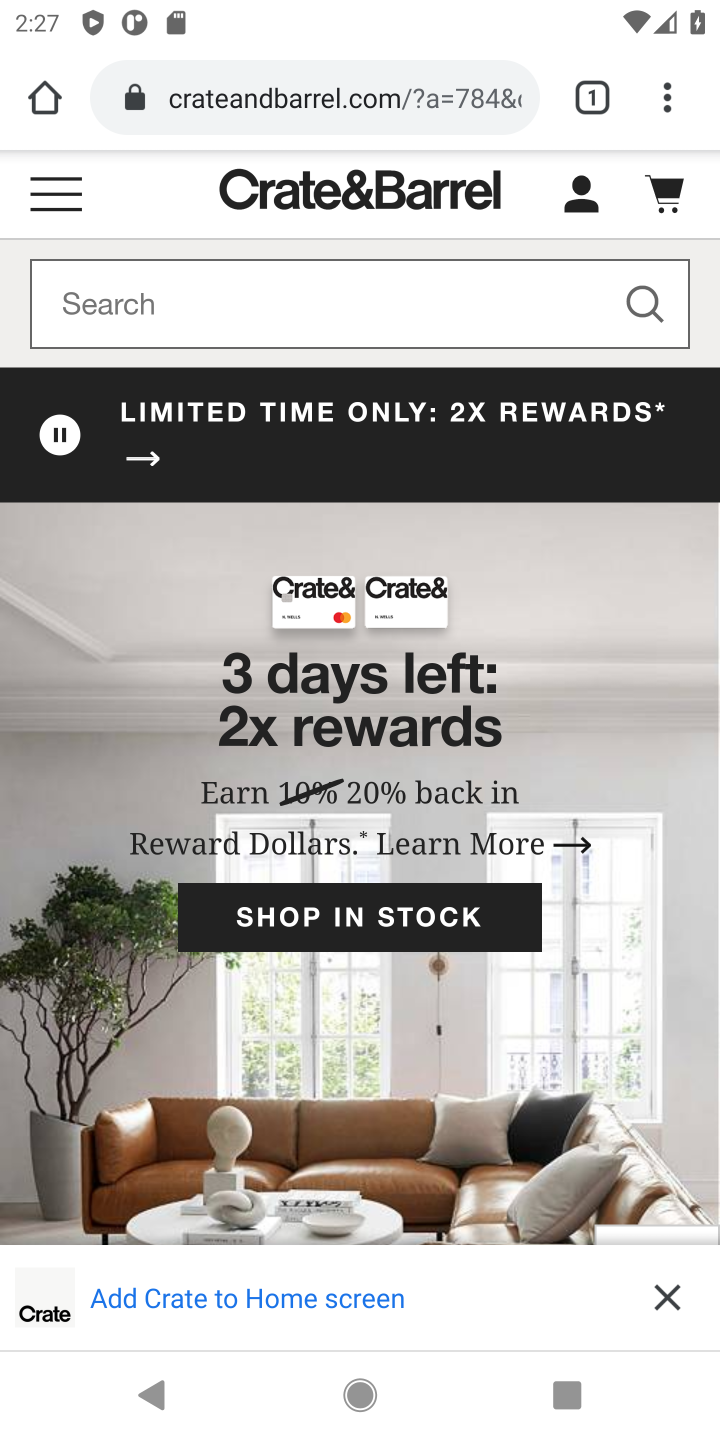
Step 32: click (71, 296)
Your task to perform on an android device: Search for the most popular coffee table on Crate & Barrel Image 33: 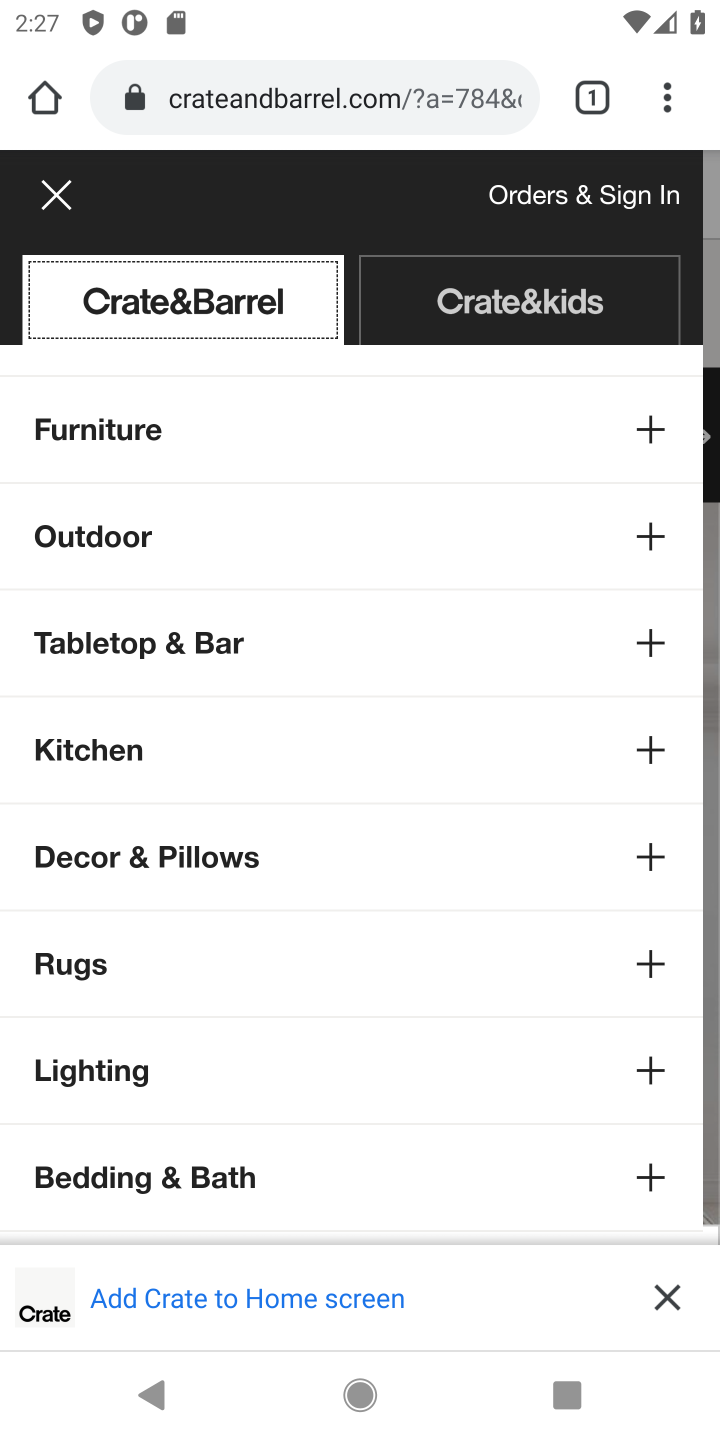
Step 33: click (65, 195)
Your task to perform on an android device: Search for the most popular coffee table on Crate & Barrel Image 34: 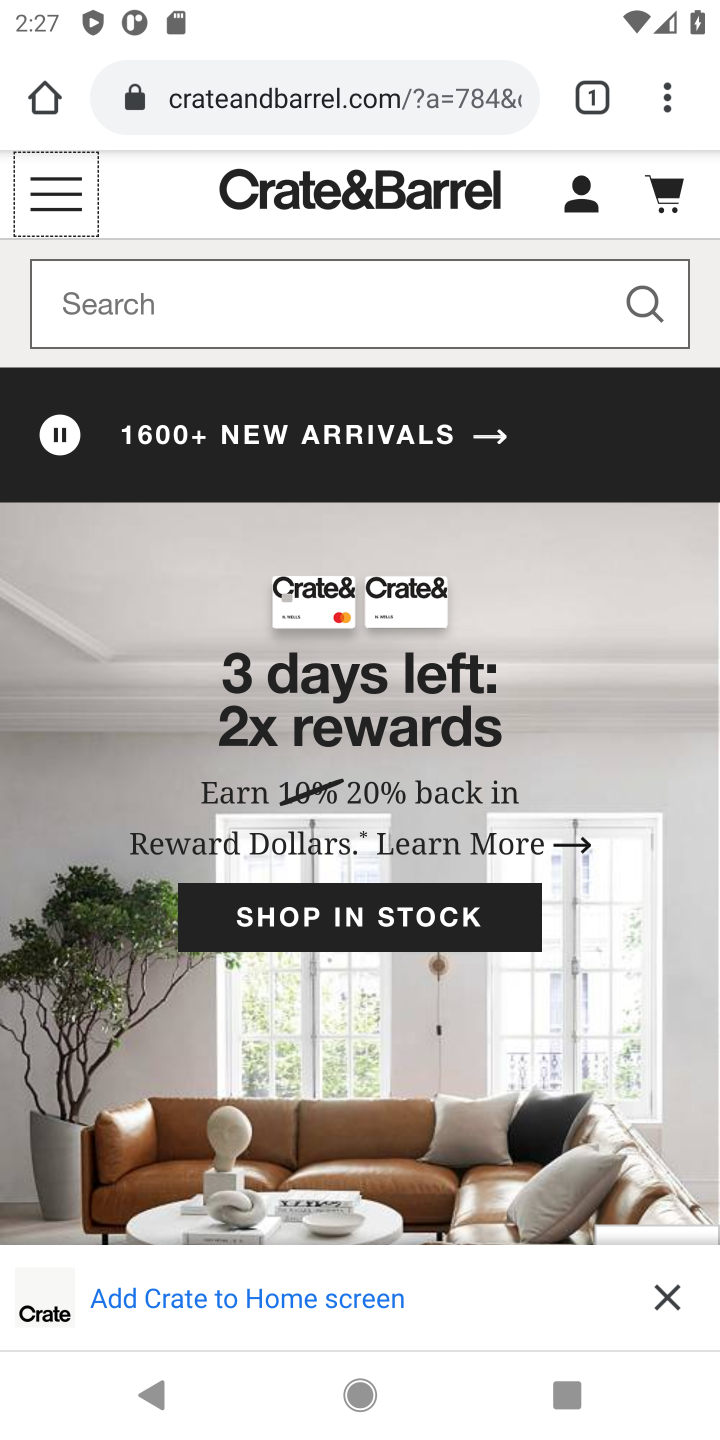
Step 34: click (287, 308)
Your task to perform on an android device: Search for the most popular coffee table on Crate & Barrel Image 35: 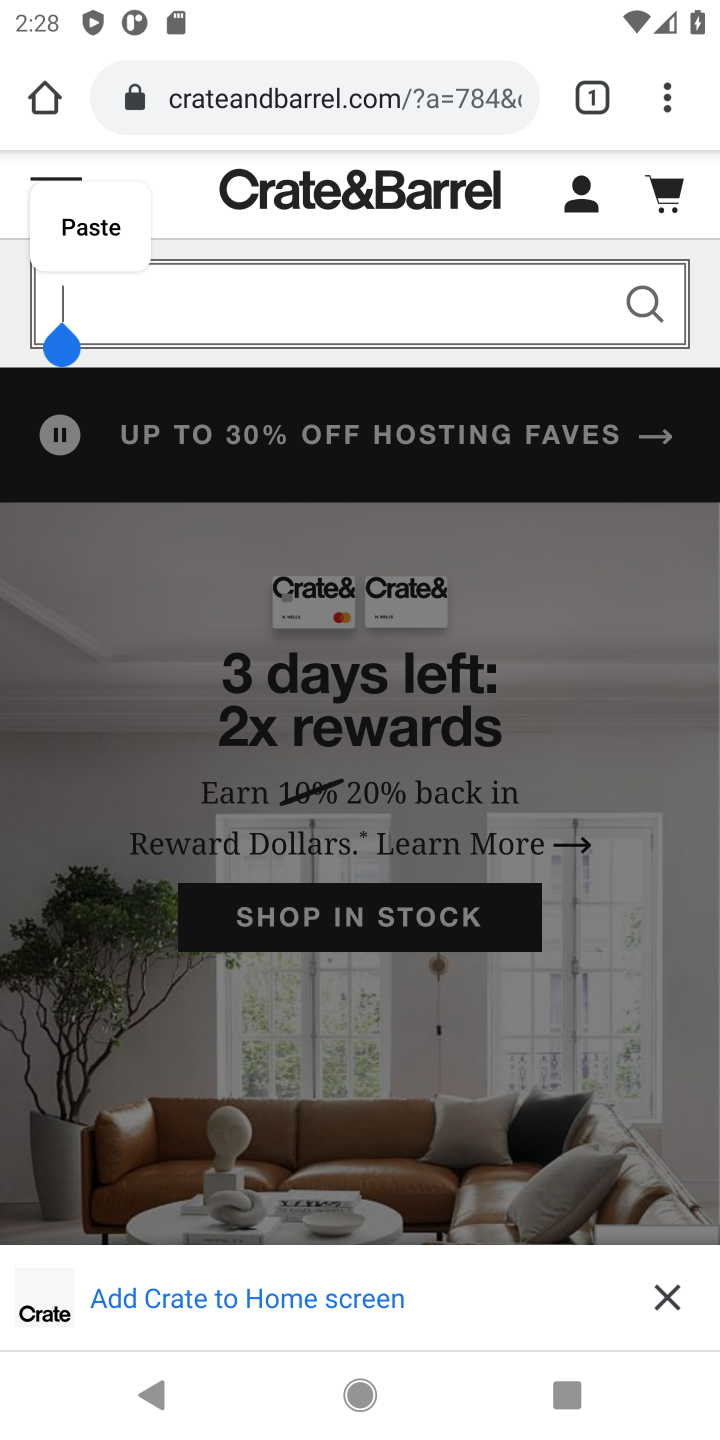
Step 35: type "coffee table "
Your task to perform on an android device: Search for the most popular coffee table on Crate & Barrel Image 36: 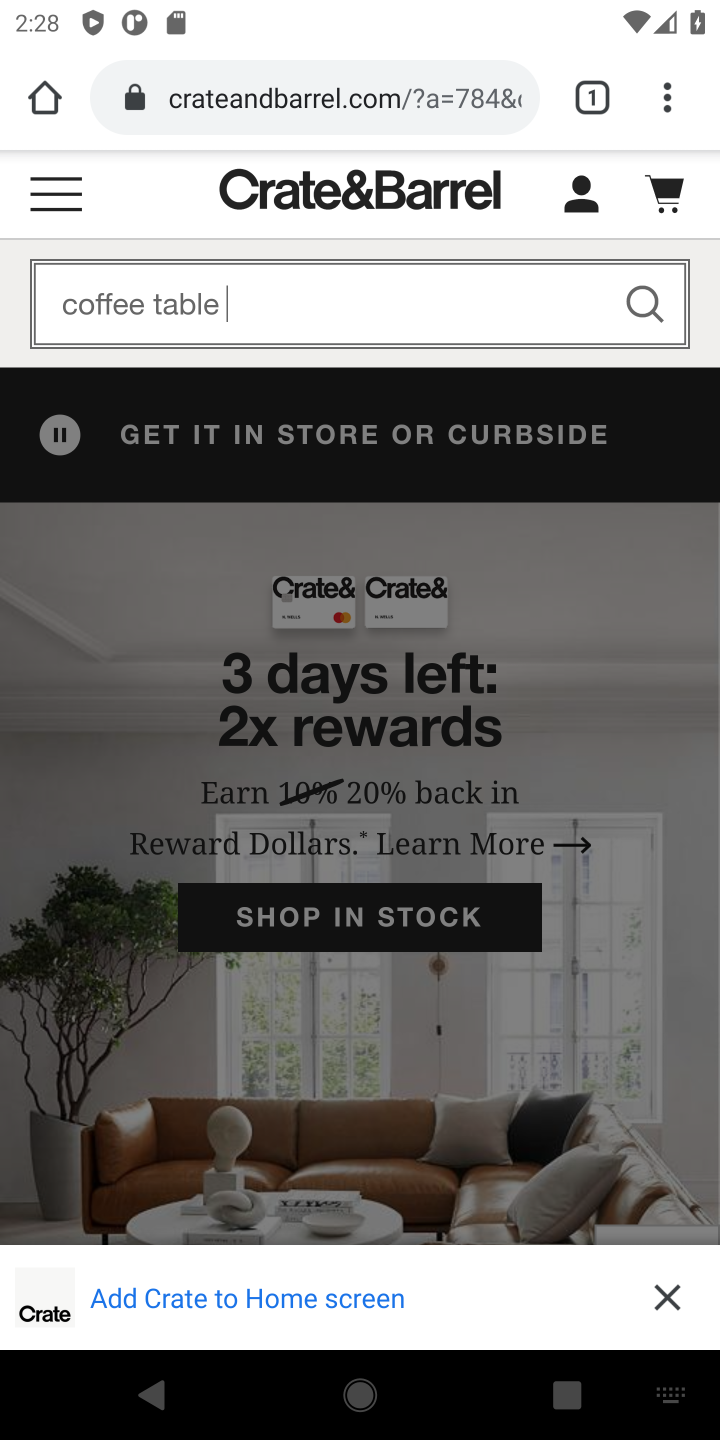
Step 36: click (642, 307)
Your task to perform on an android device: Search for the most popular coffee table on Crate & Barrel Image 37: 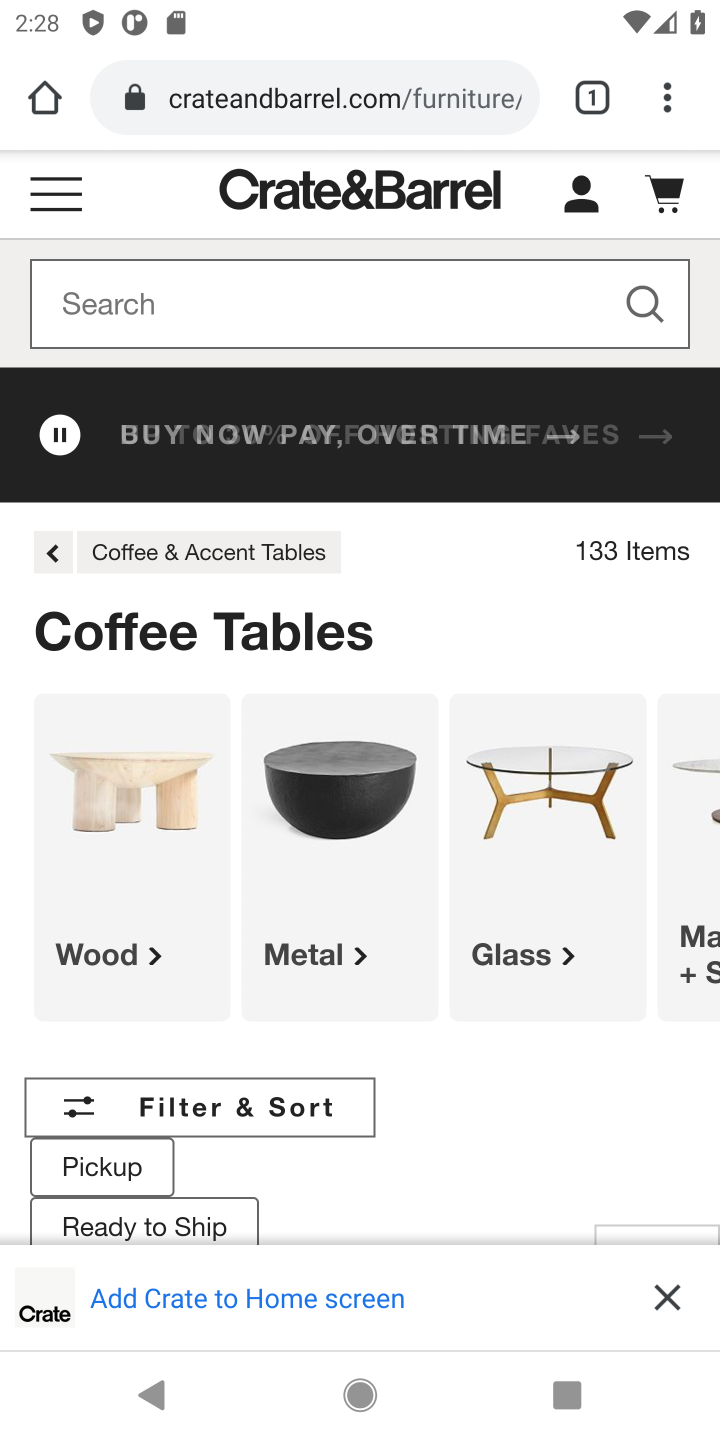
Step 37: drag from (519, 877) to (546, 693)
Your task to perform on an android device: Search for the most popular coffee table on Crate & Barrel Image 38: 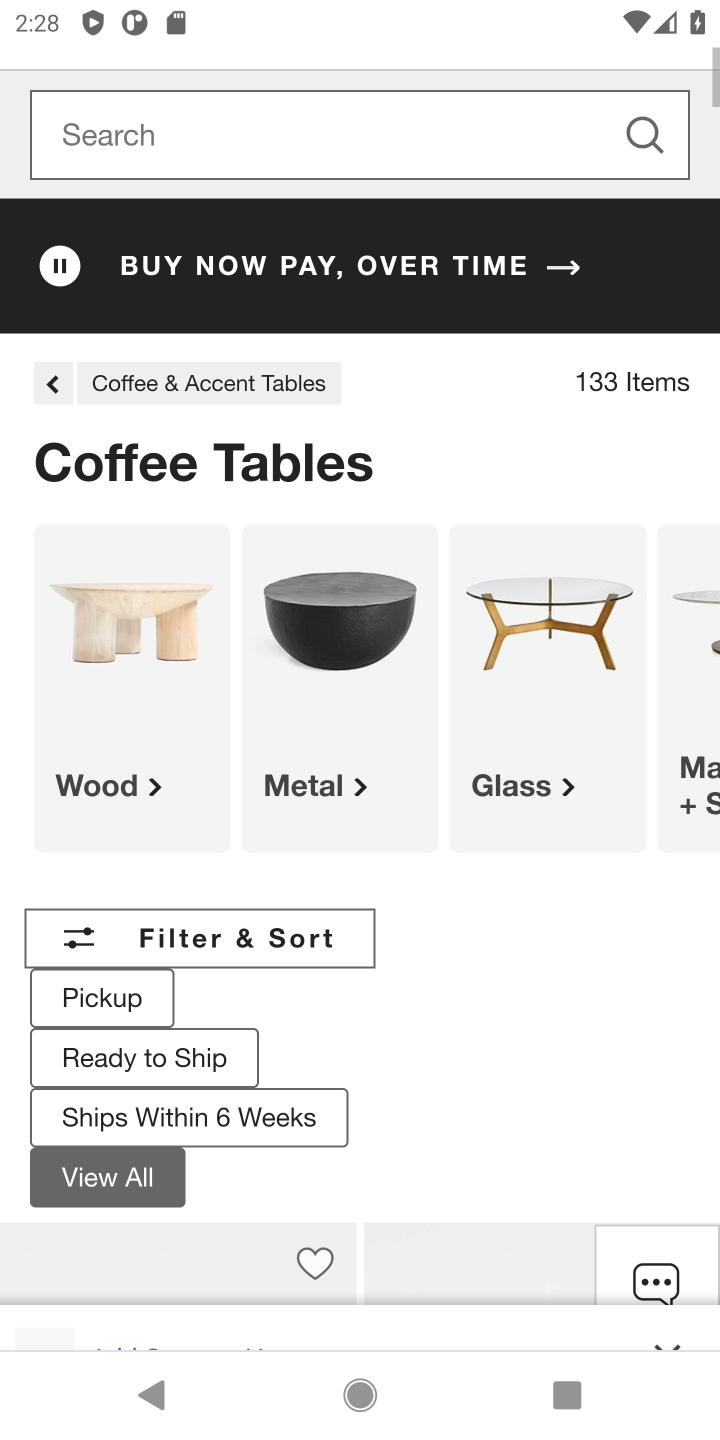
Step 38: drag from (527, 860) to (571, 445)
Your task to perform on an android device: Search for the most popular coffee table on Crate & Barrel Image 39: 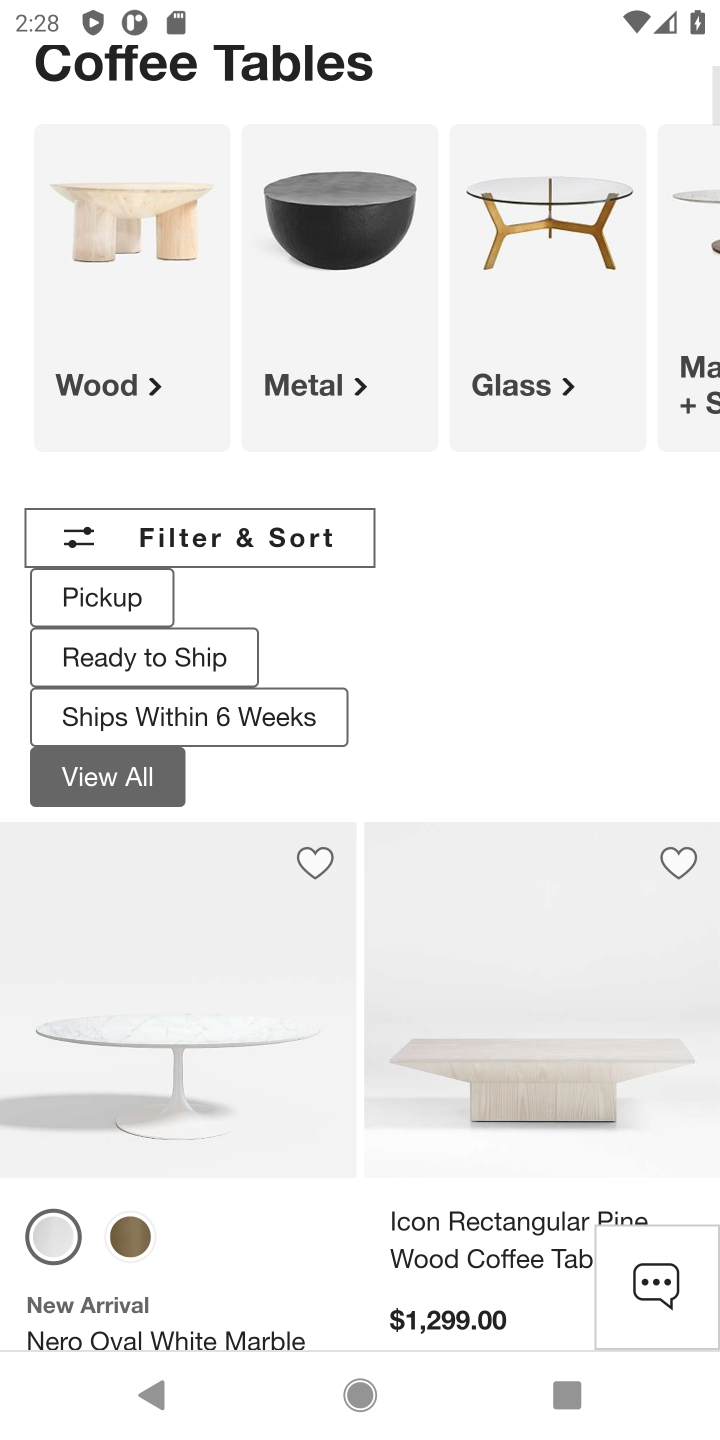
Step 39: drag from (482, 1093) to (489, 513)
Your task to perform on an android device: Search for the most popular coffee table on Crate & Barrel Image 40: 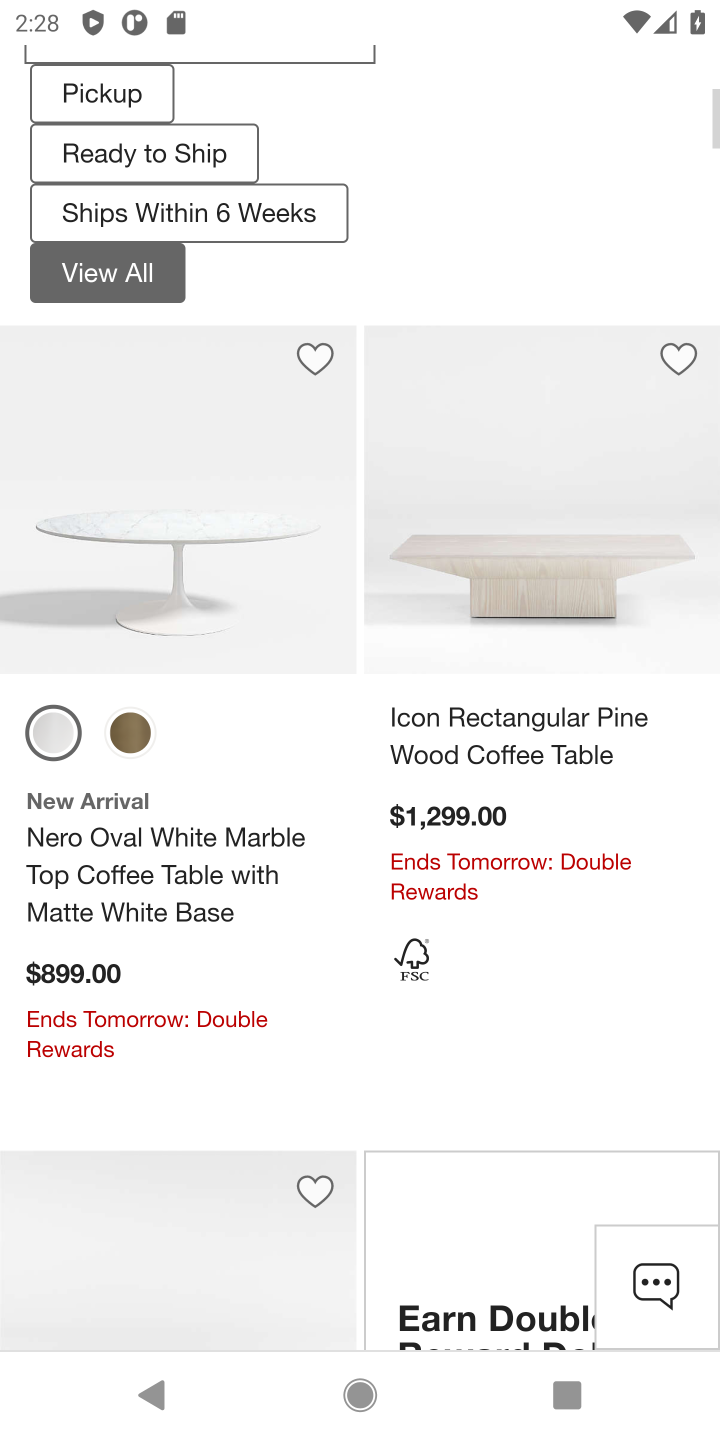
Step 40: drag from (304, 1090) to (486, 397)
Your task to perform on an android device: Search for the most popular coffee table on Crate & Barrel Image 41: 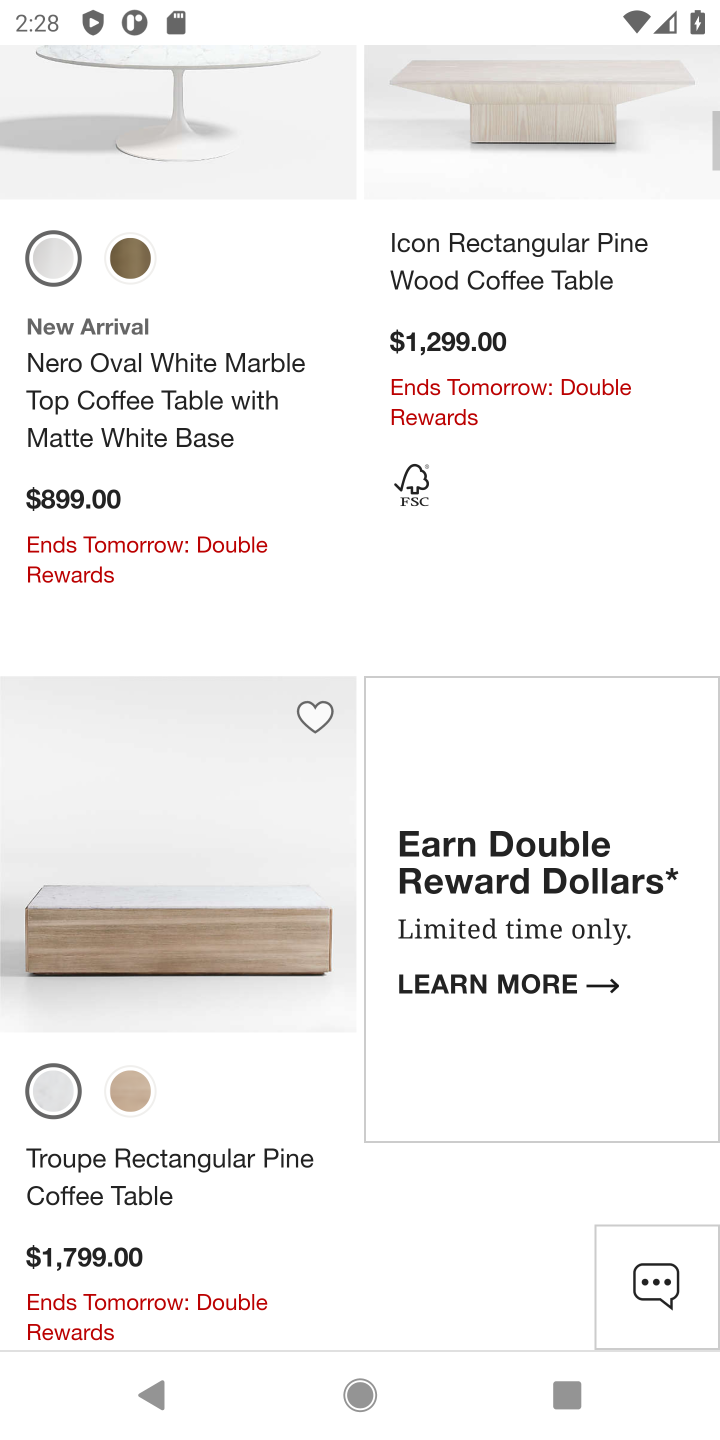
Step 41: drag from (363, 1157) to (548, 307)
Your task to perform on an android device: Search for the most popular coffee table on Crate & Barrel Image 42: 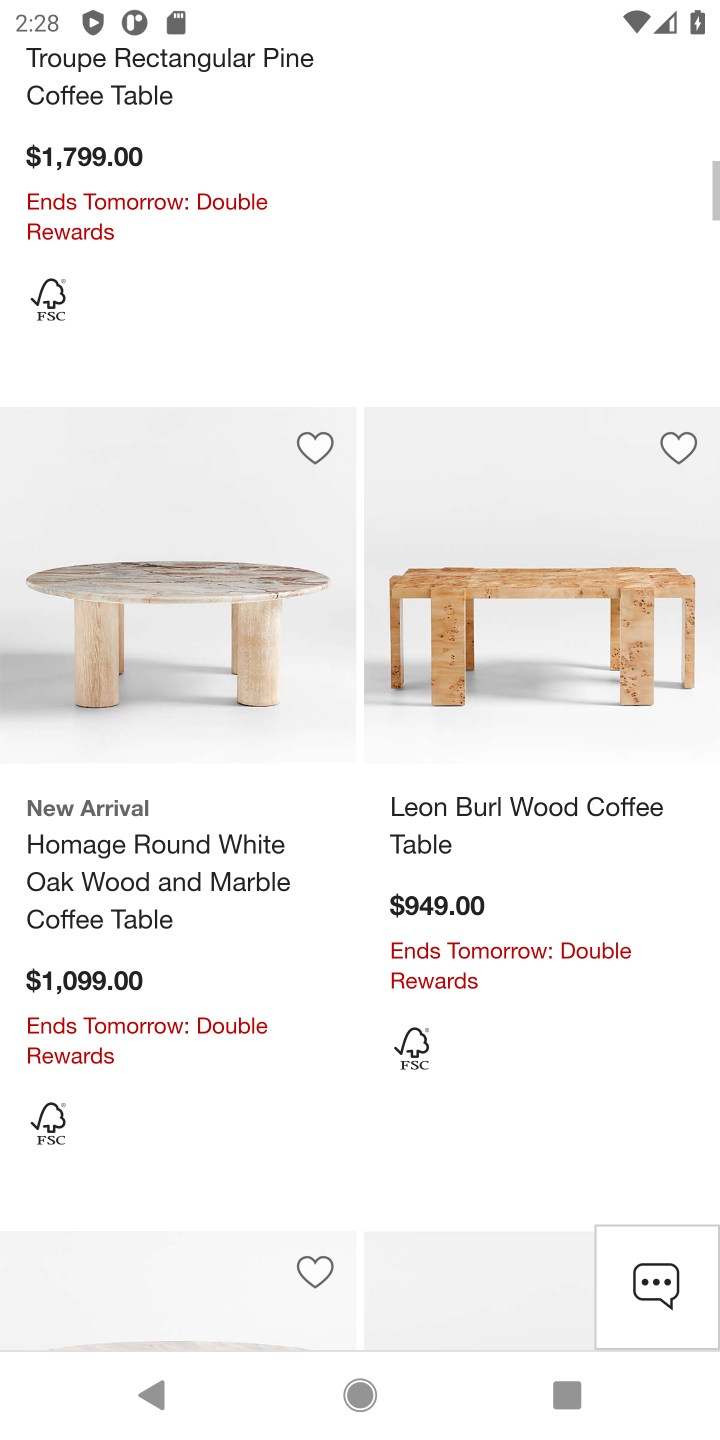
Step 42: click (483, 323)
Your task to perform on an android device: Search for the most popular coffee table on Crate & Barrel Image 43: 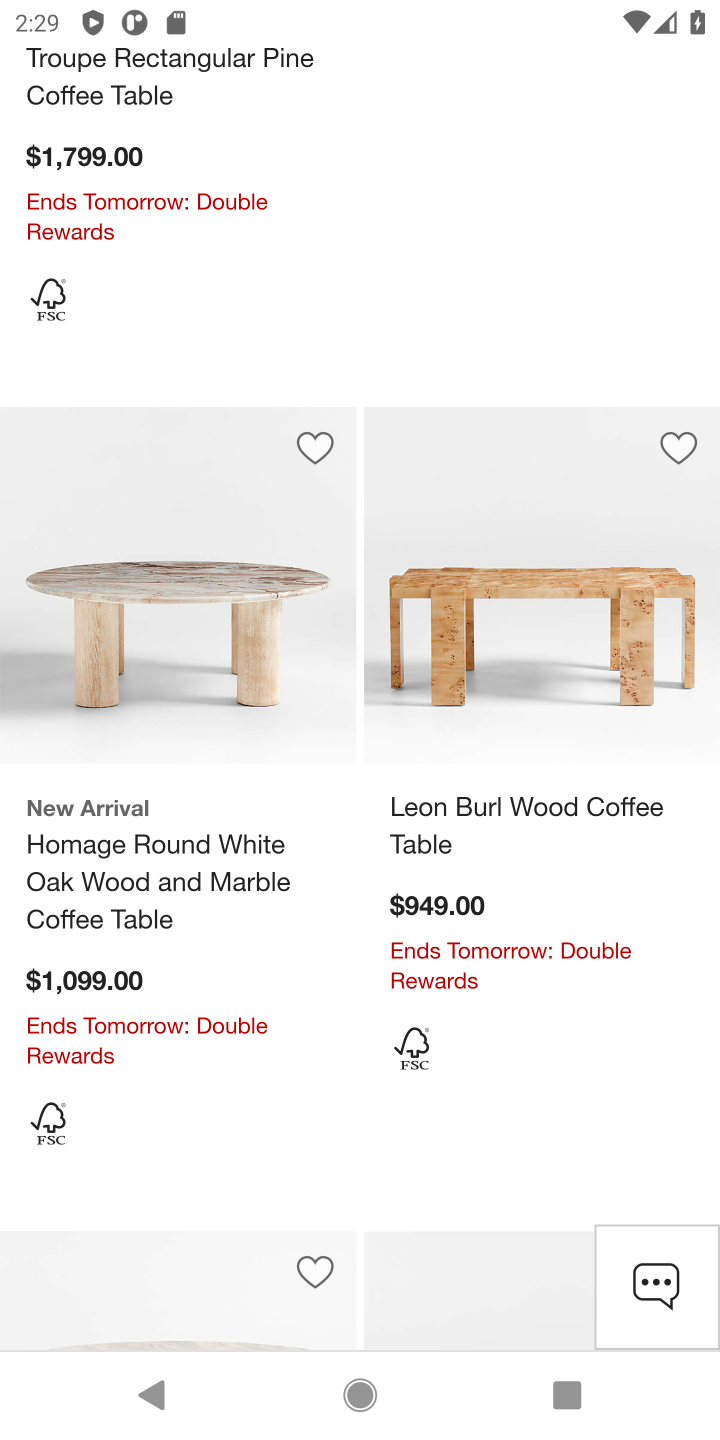
Step 43: drag from (334, 1110) to (464, 441)
Your task to perform on an android device: Search for the most popular coffee table on Crate & Barrel Image 44: 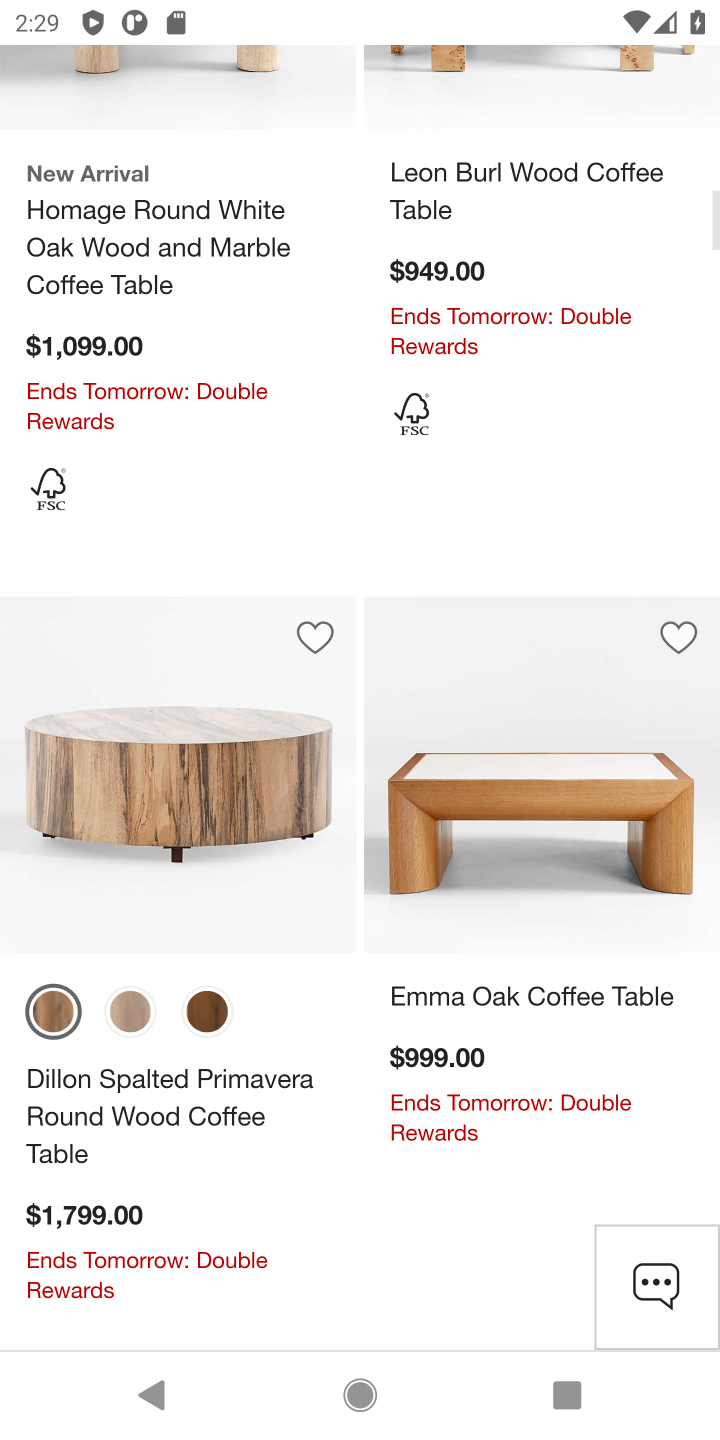
Step 44: drag from (440, 1119) to (549, 431)
Your task to perform on an android device: Search for the most popular coffee table on Crate & Barrel Image 45: 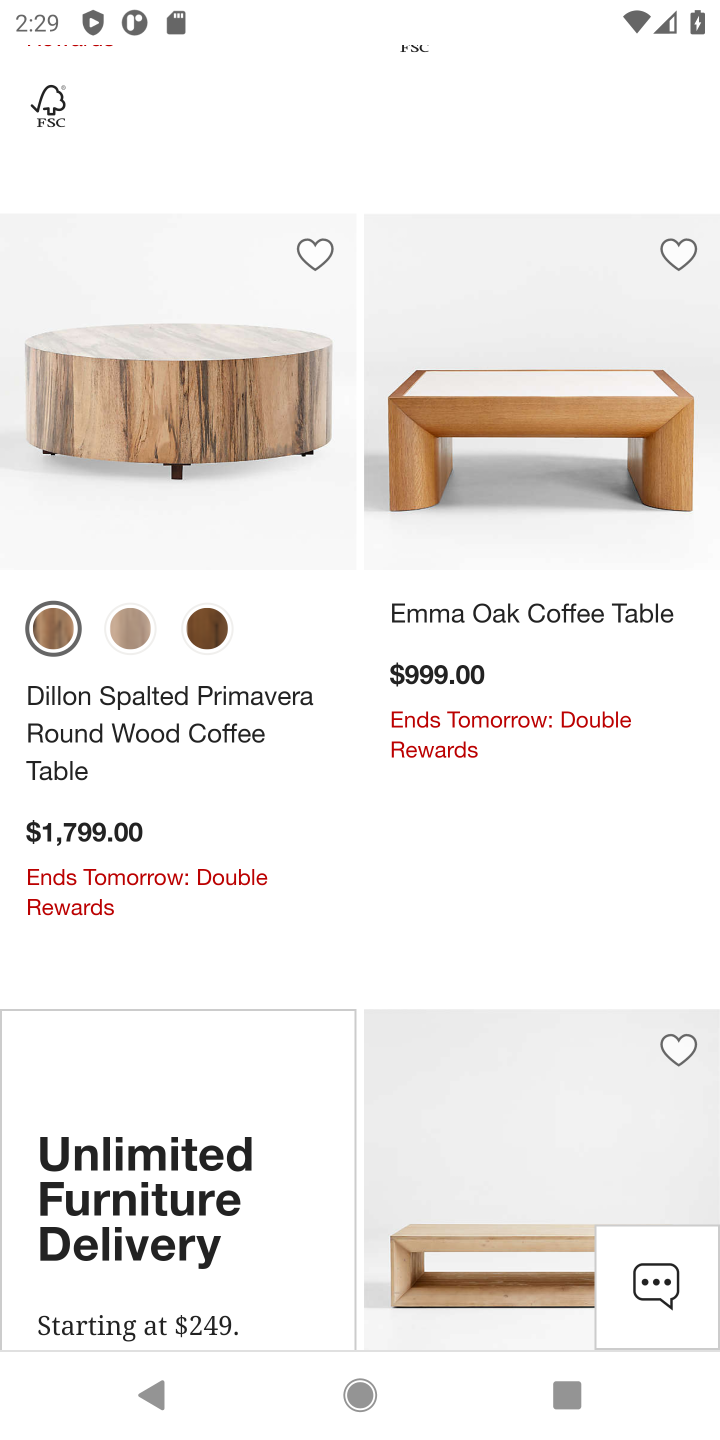
Step 45: drag from (491, 1200) to (615, 406)
Your task to perform on an android device: Search for the most popular coffee table on Crate & Barrel Image 46: 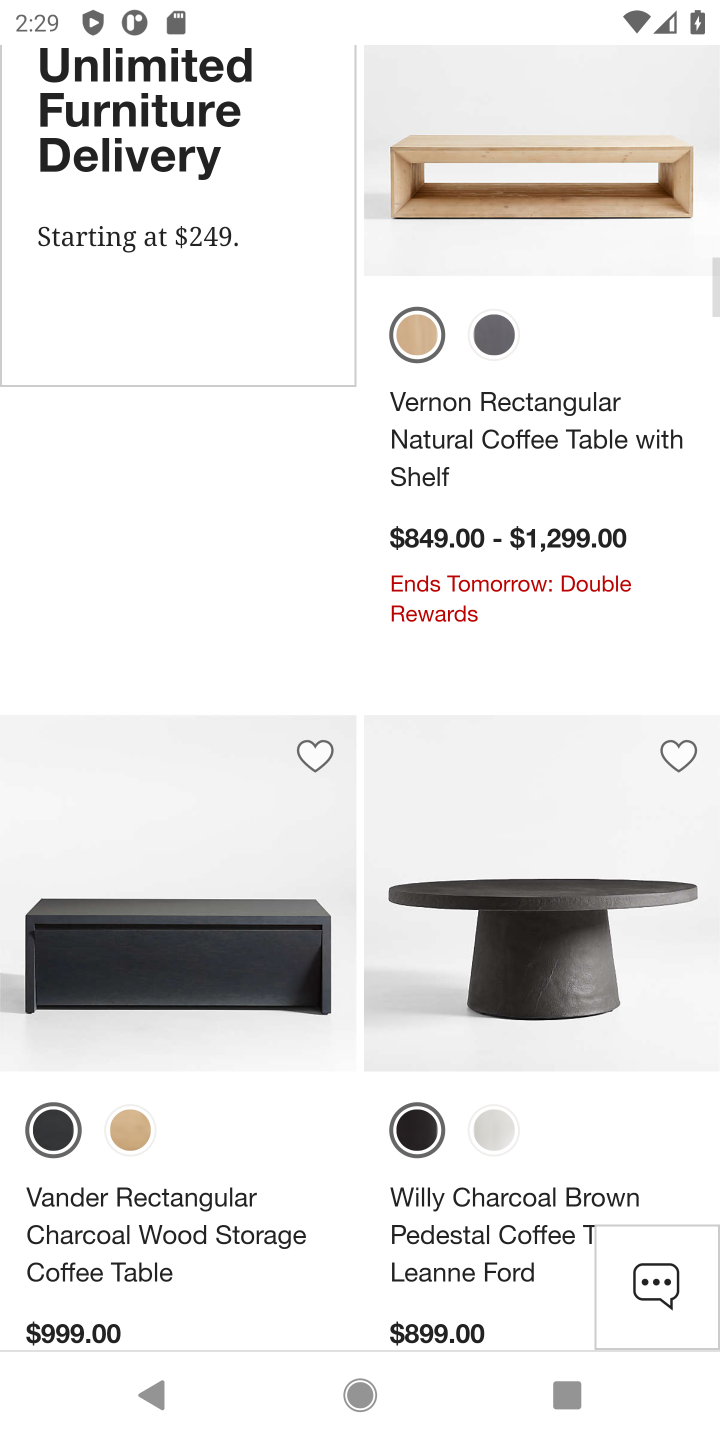
Step 46: drag from (542, 742) to (496, 593)
Your task to perform on an android device: Search for the most popular coffee table on Crate & Barrel Image 47: 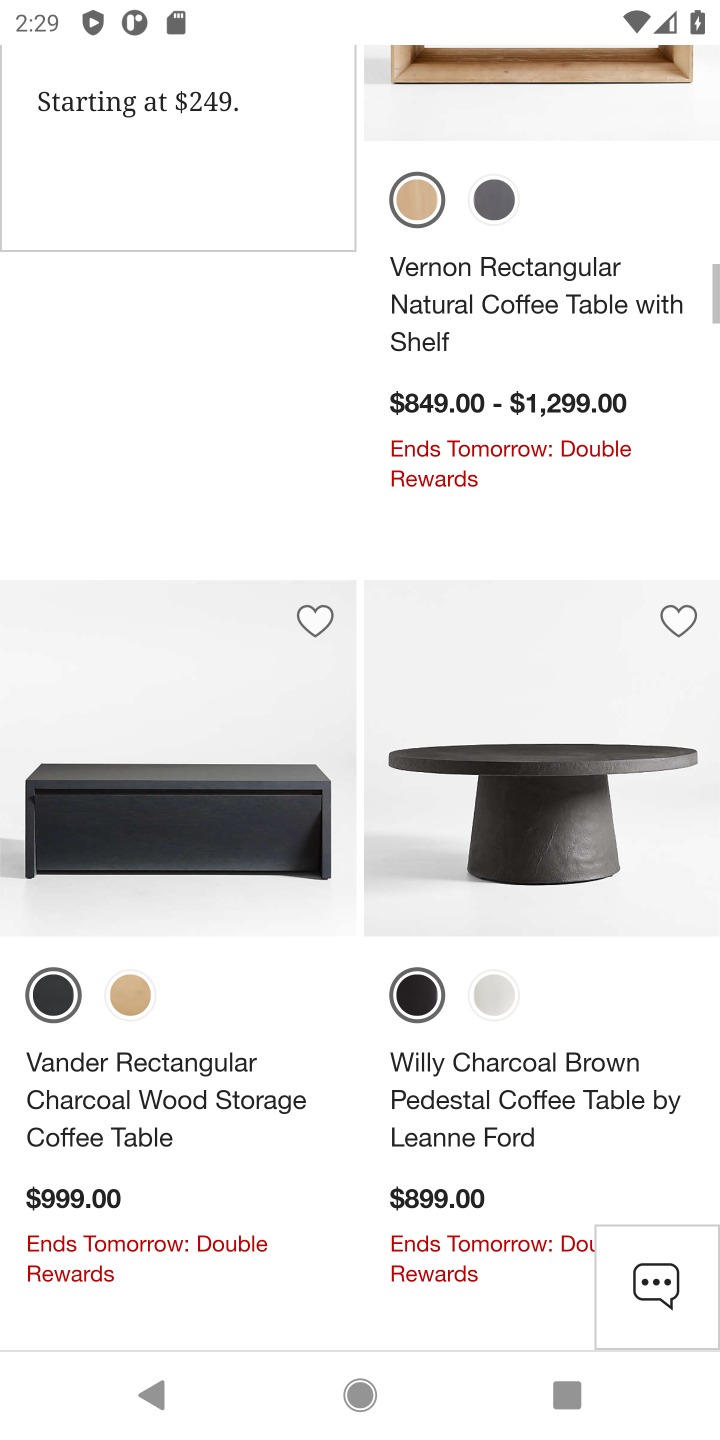
Step 47: drag from (522, 1075) to (633, 437)
Your task to perform on an android device: Search for the most popular coffee table on Crate & Barrel Image 48: 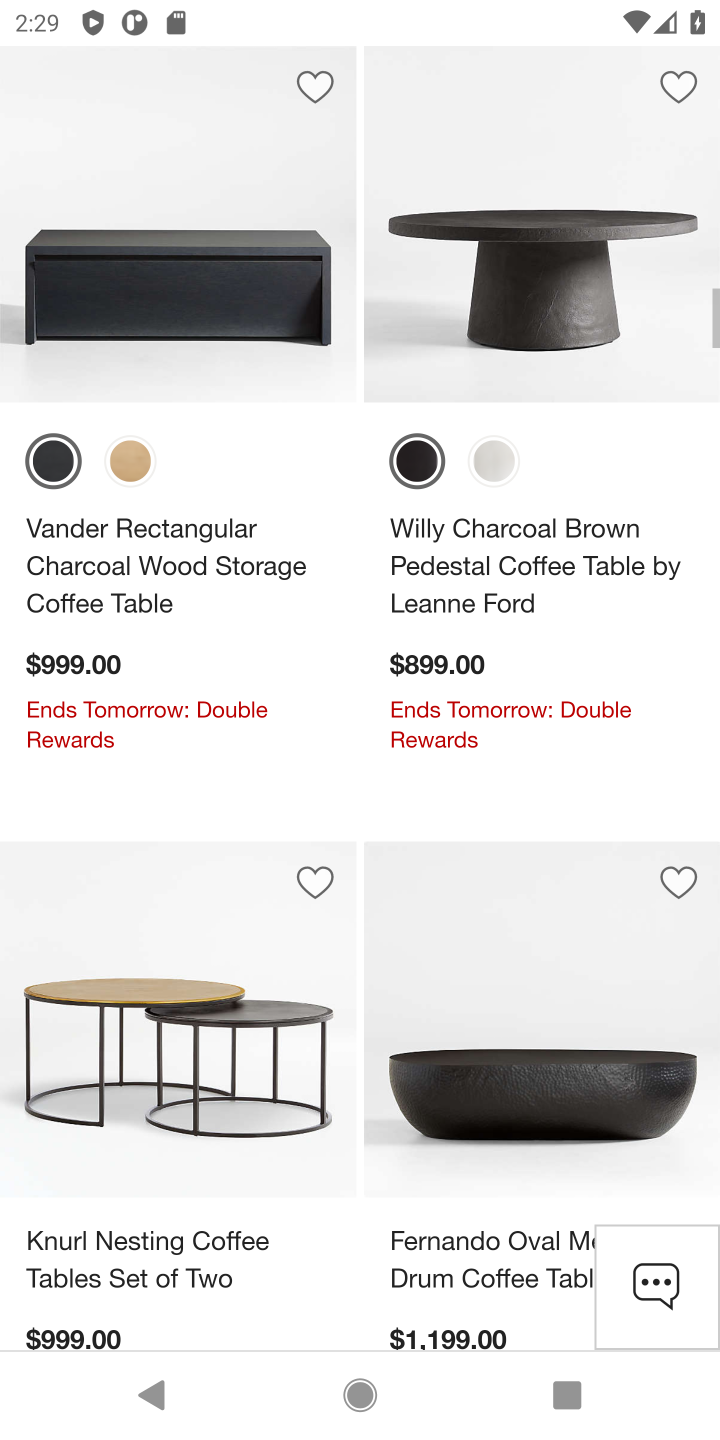
Step 48: drag from (464, 839) to (525, 347)
Your task to perform on an android device: Search for the most popular coffee table on Crate & Barrel Image 49: 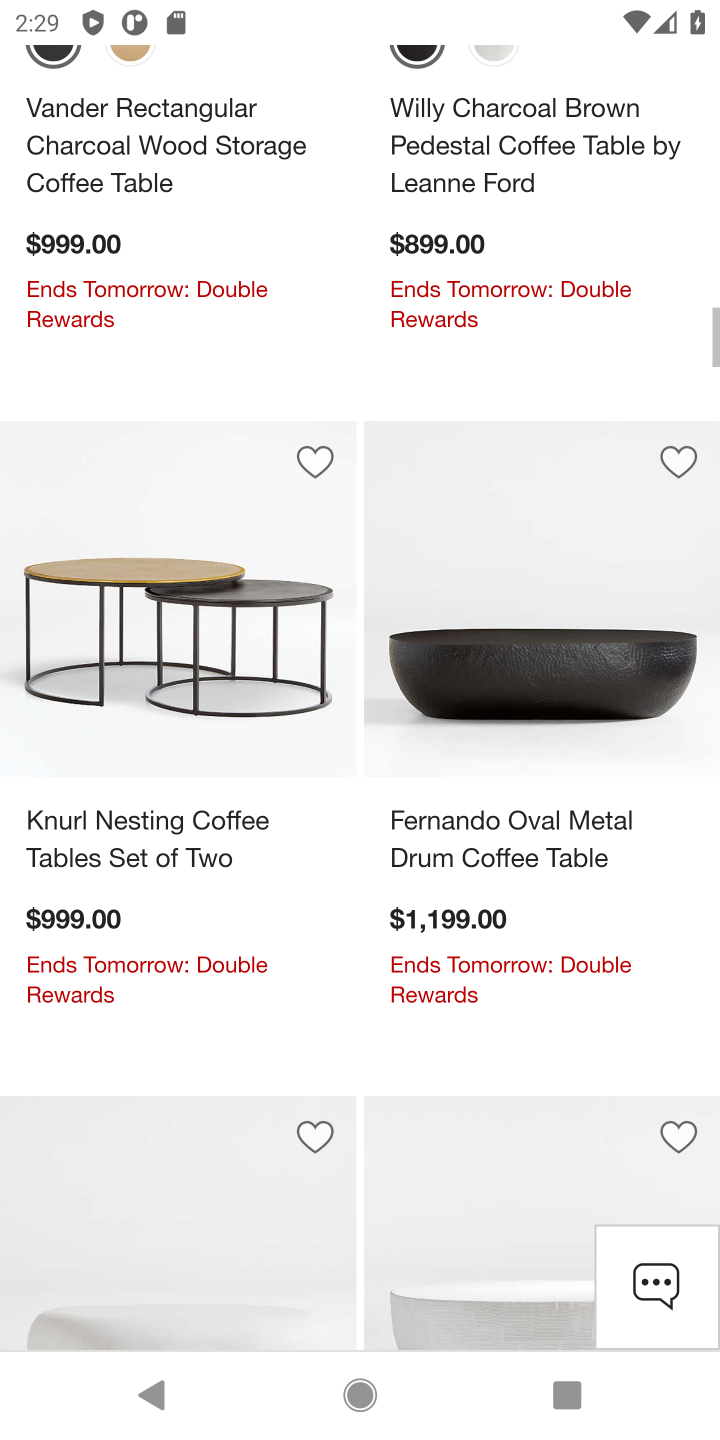
Step 49: click (542, 552)
Your task to perform on an android device: Search for the most popular coffee table on Crate & Barrel Image 50: 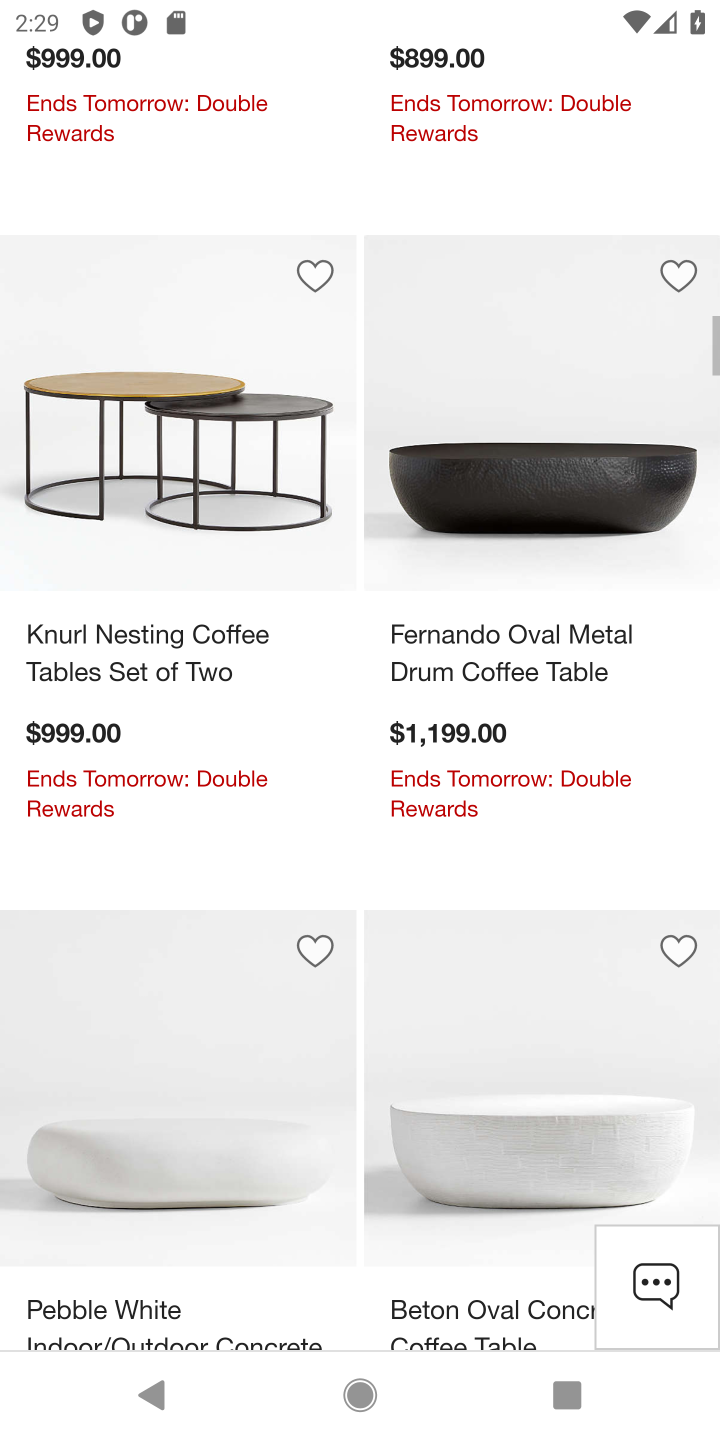
Step 50: drag from (490, 718) to (513, 623)
Your task to perform on an android device: Search for the most popular coffee table on Crate & Barrel Image 51: 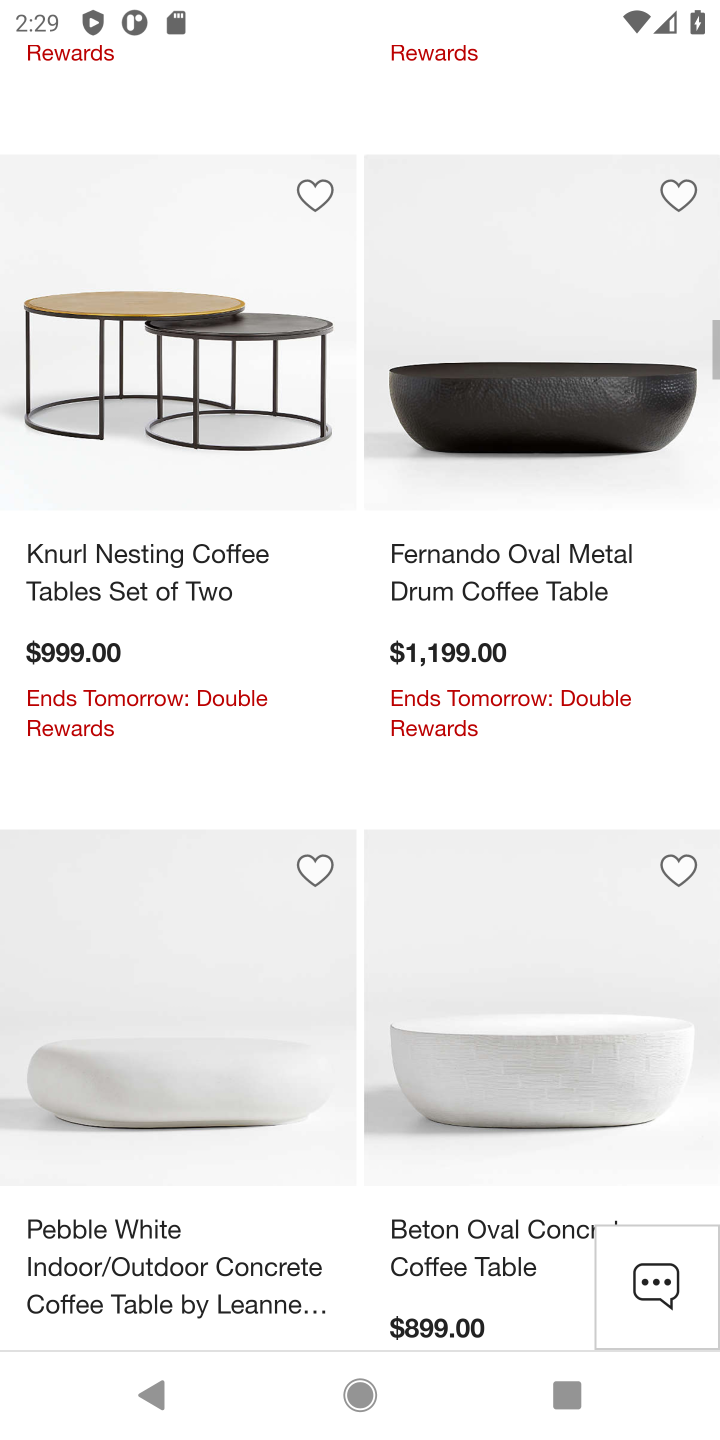
Step 51: click (543, 645)
Your task to perform on an android device: Search for the most popular coffee table on Crate & Barrel Image 52: 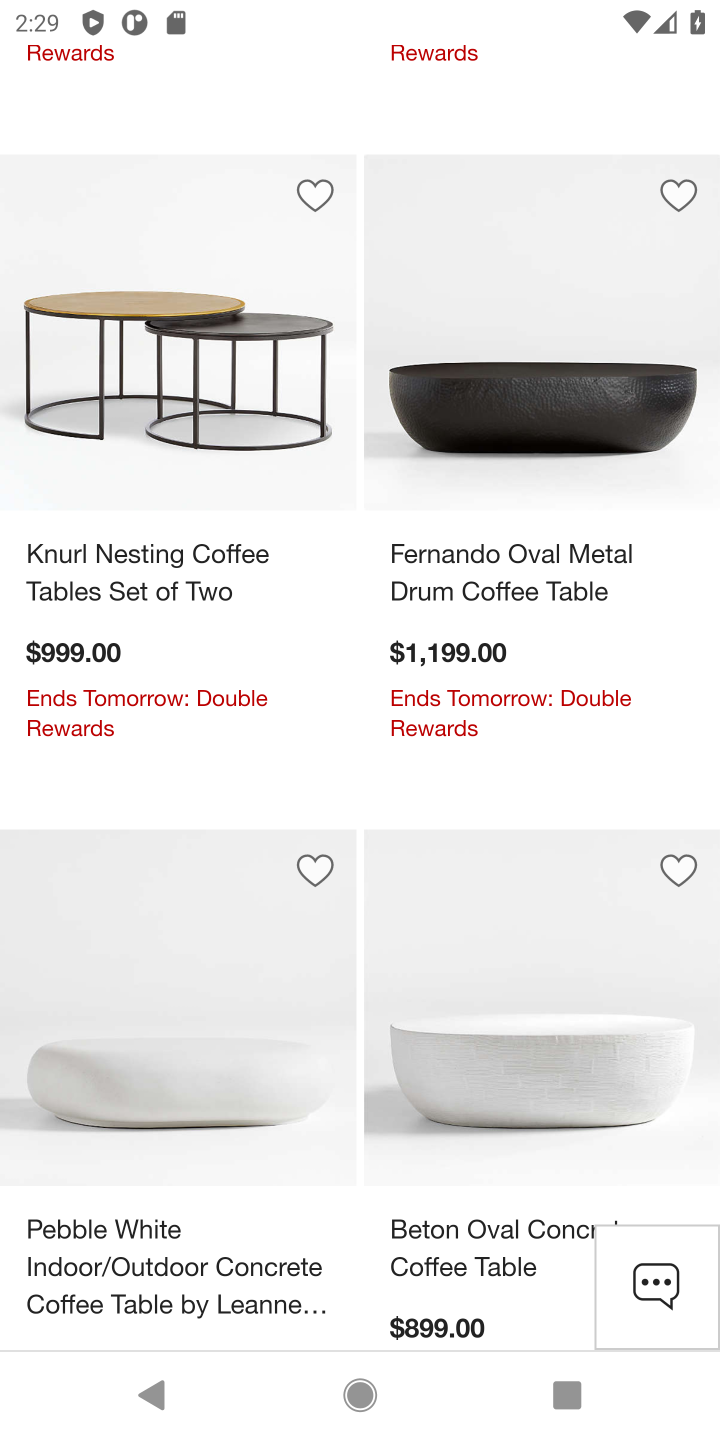
Step 52: task complete